Your task to perform on an android device: Clear the shopping cart on newegg.com. Add "logitech g910" to the cart on newegg.com, then select checkout. Image 0: 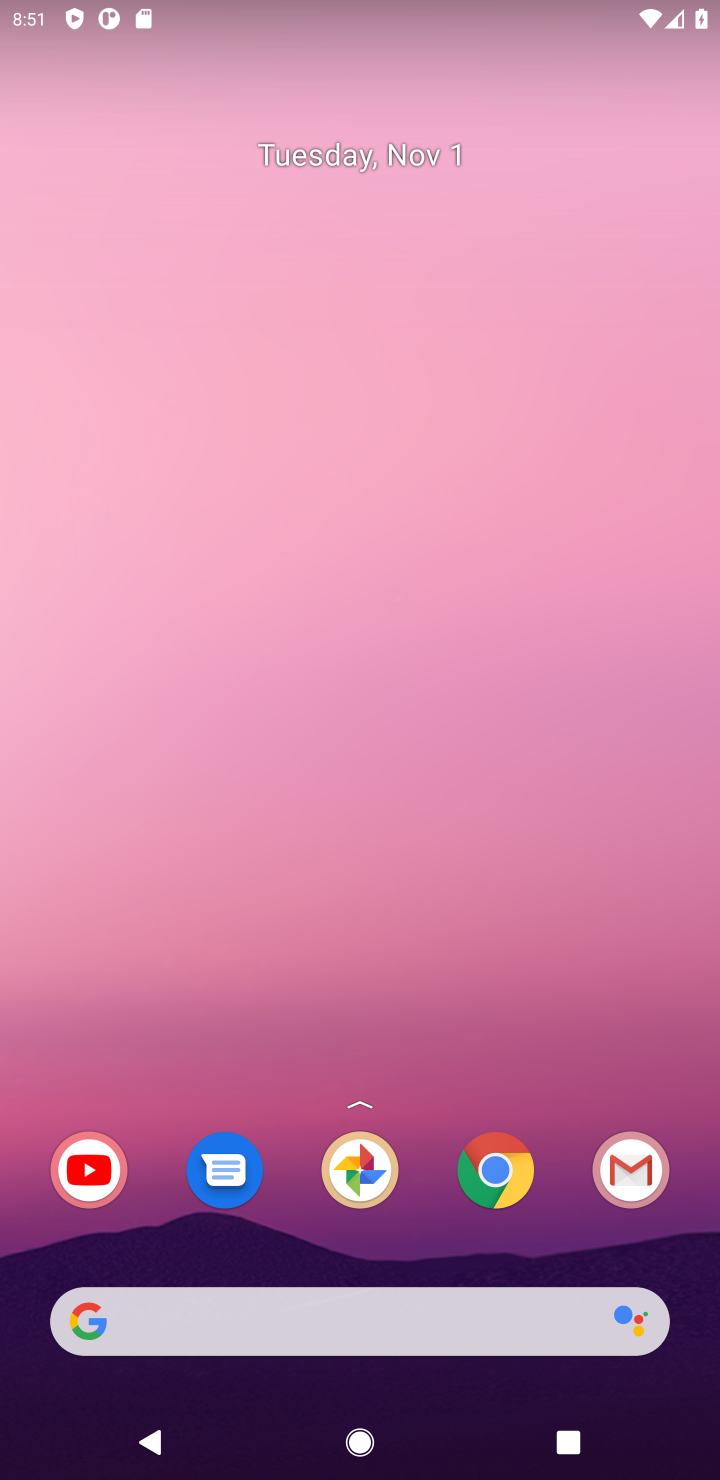
Step 0: click (489, 1169)
Your task to perform on an android device: Clear the shopping cart on newegg.com. Add "logitech g910" to the cart on newegg.com, then select checkout. Image 1: 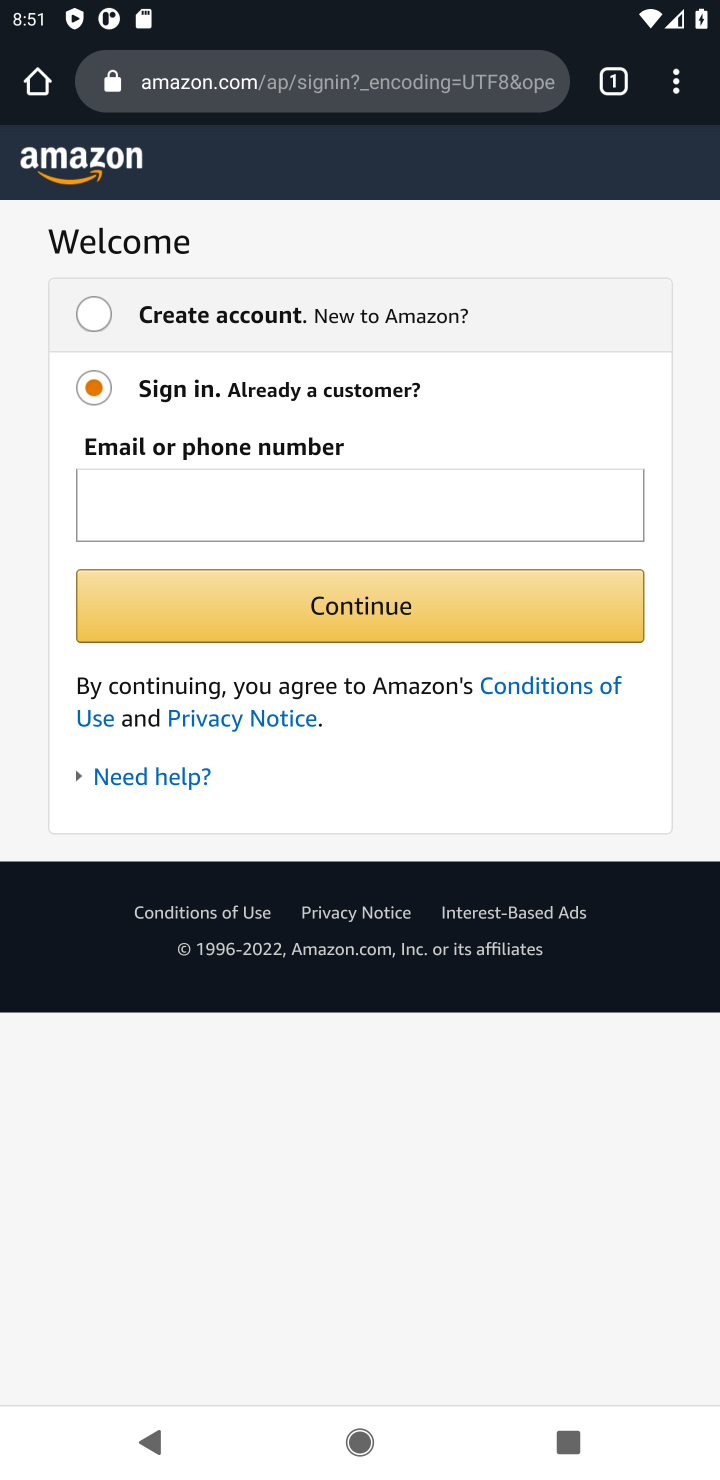
Step 1: click (400, 81)
Your task to perform on an android device: Clear the shopping cart on newegg.com. Add "logitech g910" to the cart on newegg.com, then select checkout. Image 2: 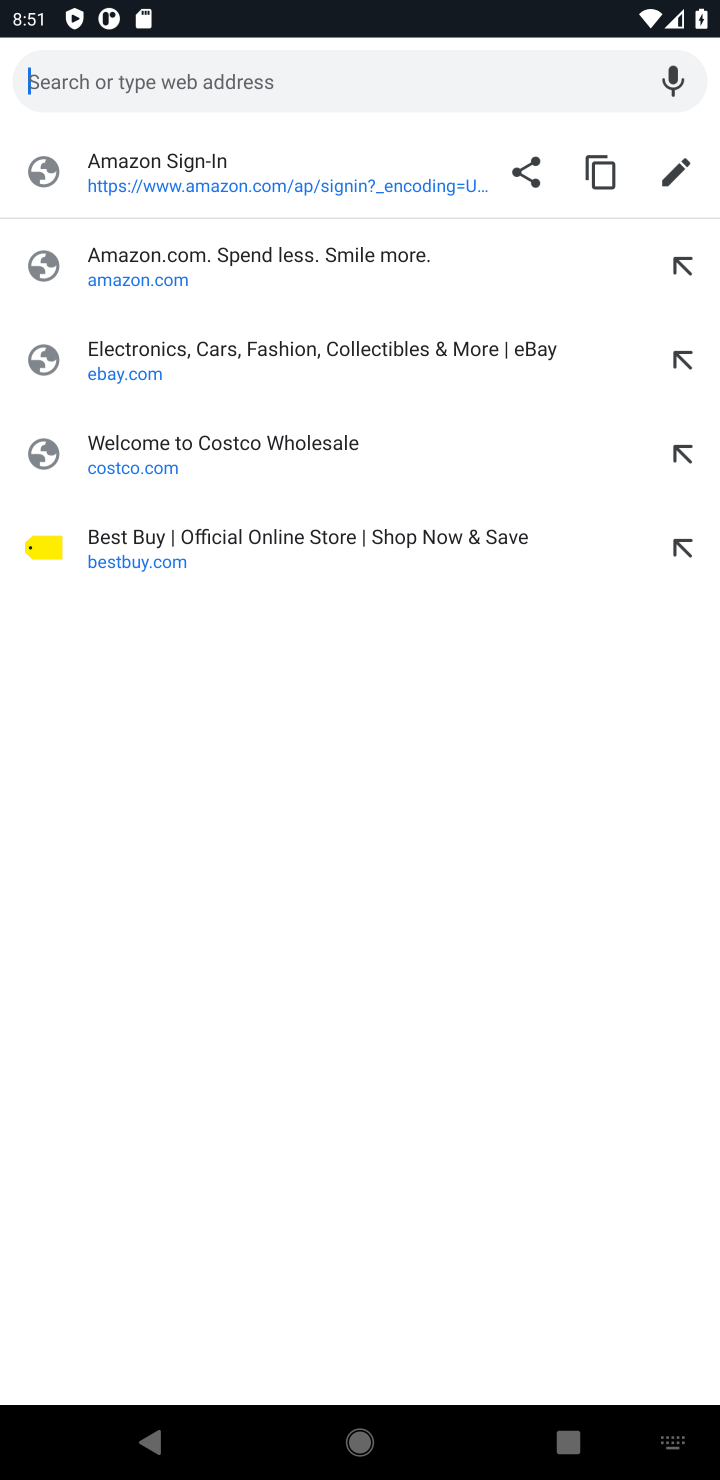
Step 2: type "newegg.com"
Your task to perform on an android device: Clear the shopping cart on newegg.com. Add "logitech g910" to the cart on newegg.com, then select checkout. Image 3: 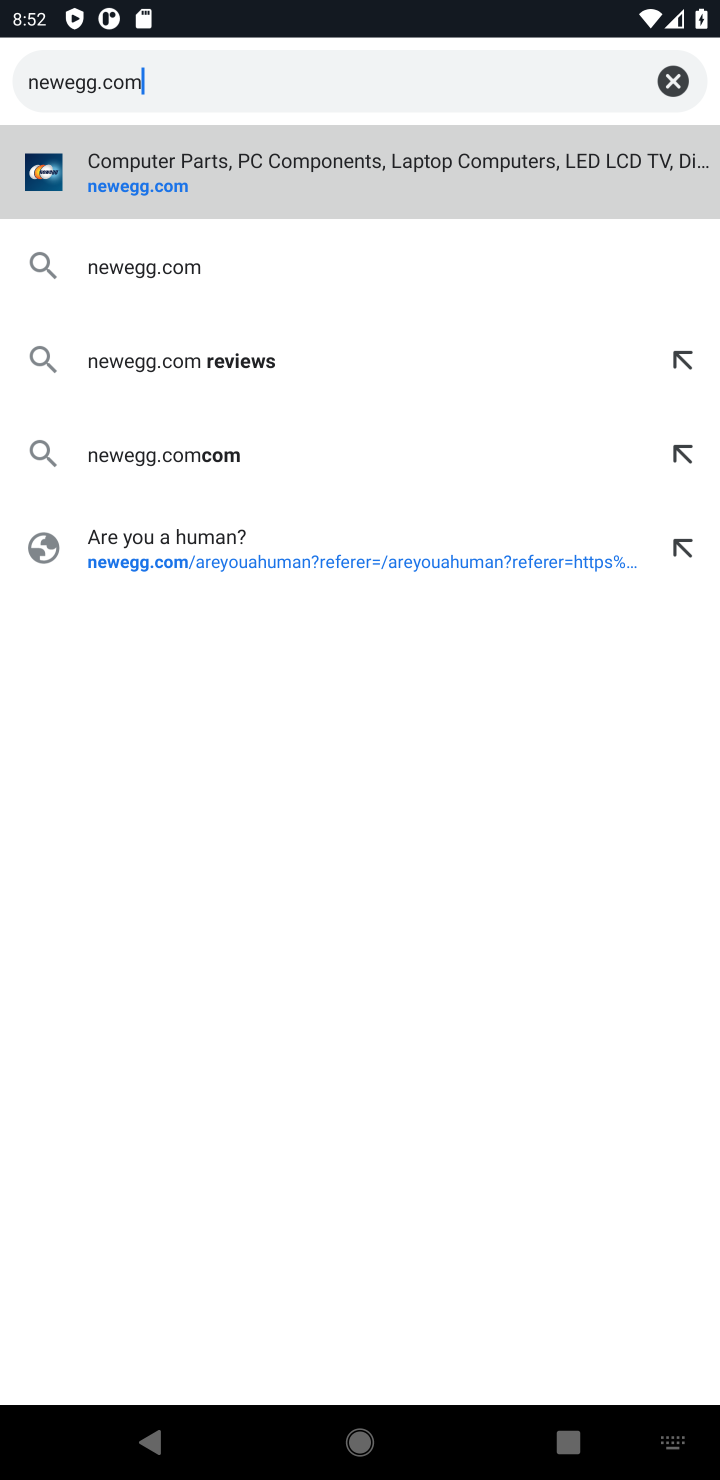
Step 3: press enter
Your task to perform on an android device: Clear the shopping cart on newegg.com. Add "logitech g910" to the cart on newegg.com, then select checkout. Image 4: 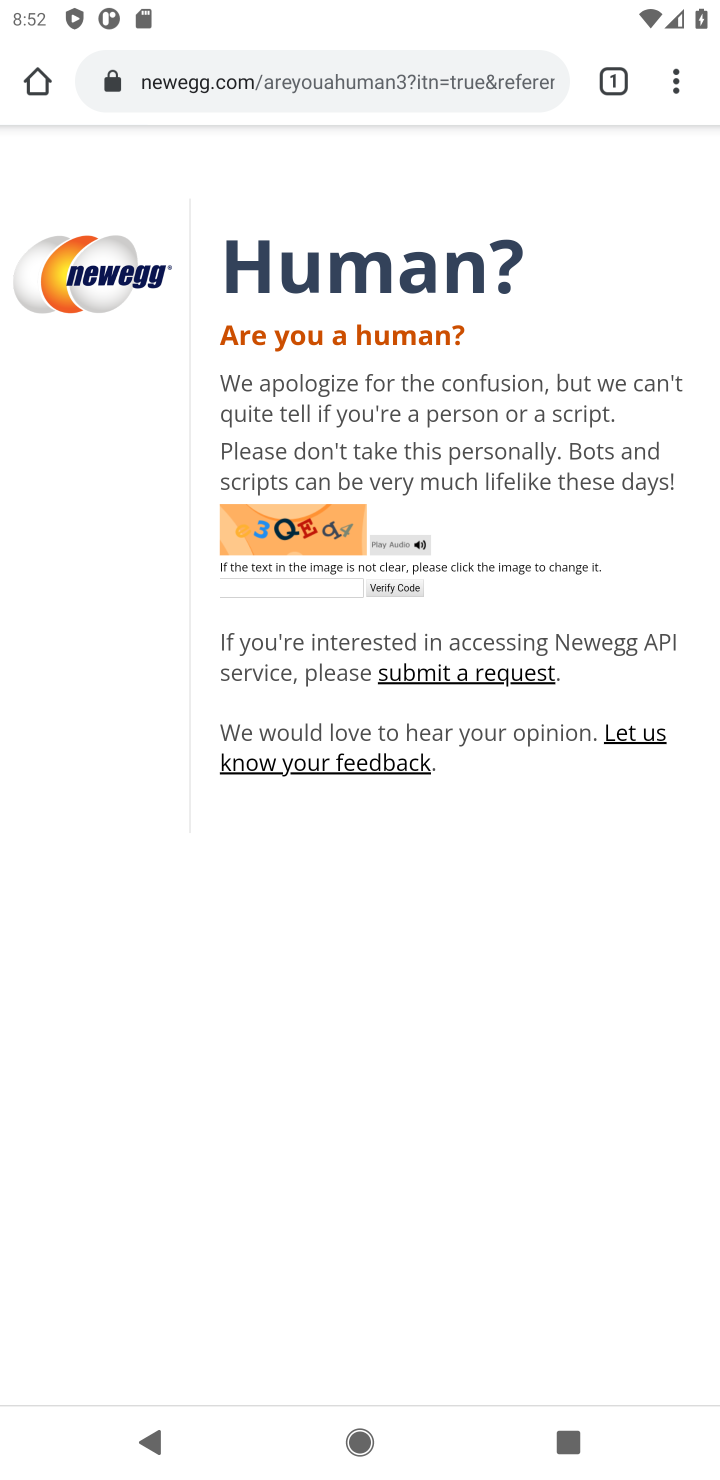
Step 4: click (274, 580)
Your task to perform on an android device: Clear the shopping cart on newegg.com. Add "logitech g910" to the cart on newegg.com, then select checkout. Image 5: 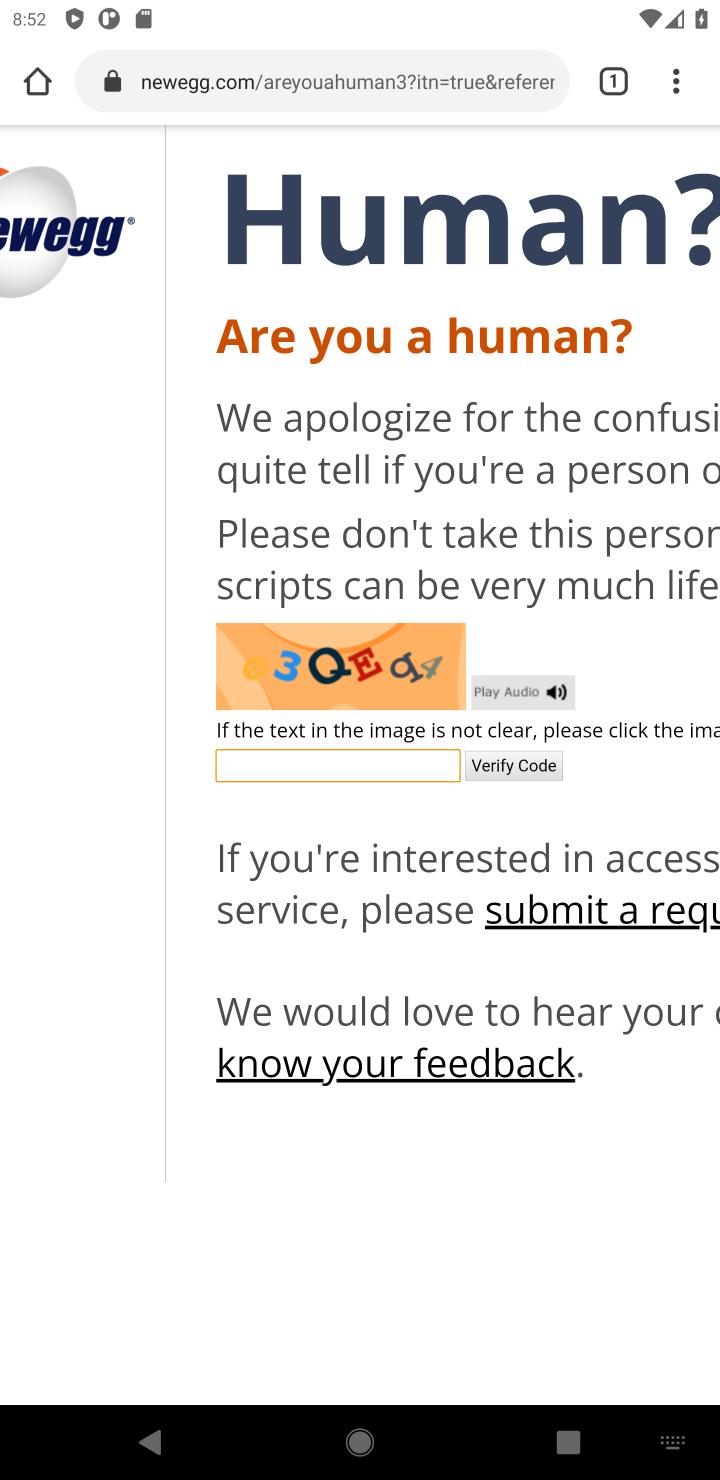
Step 5: type "t3QEq"
Your task to perform on an android device: Clear the shopping cart on newegg.com. Add "logitech g910" to the cart on newegg.com, then select checkout. Image 6: 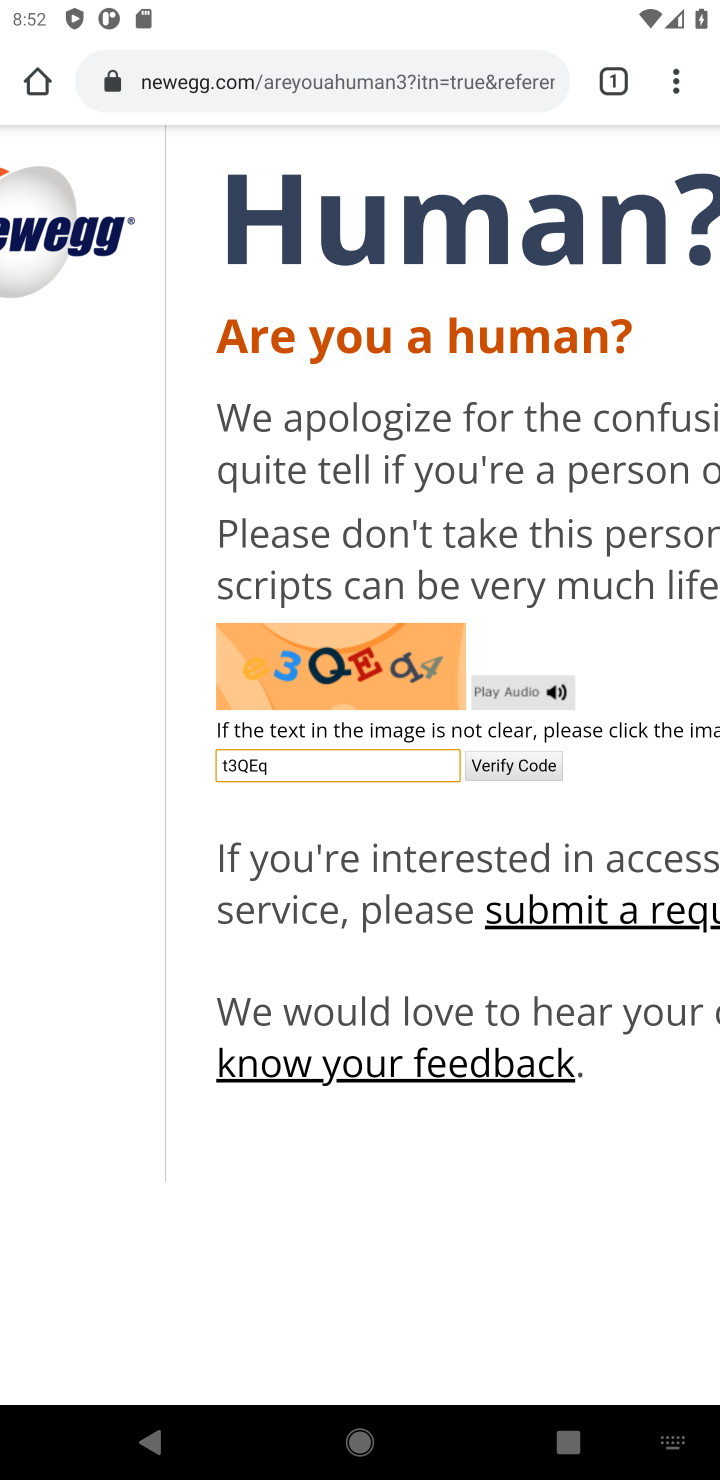
Step 6: click (556, 772)
Your task to perform on an android device: Clear the shopping cart on newegg.com. Add "logitech g910" to the cart on newegg.com, then select checkout. Image 7: 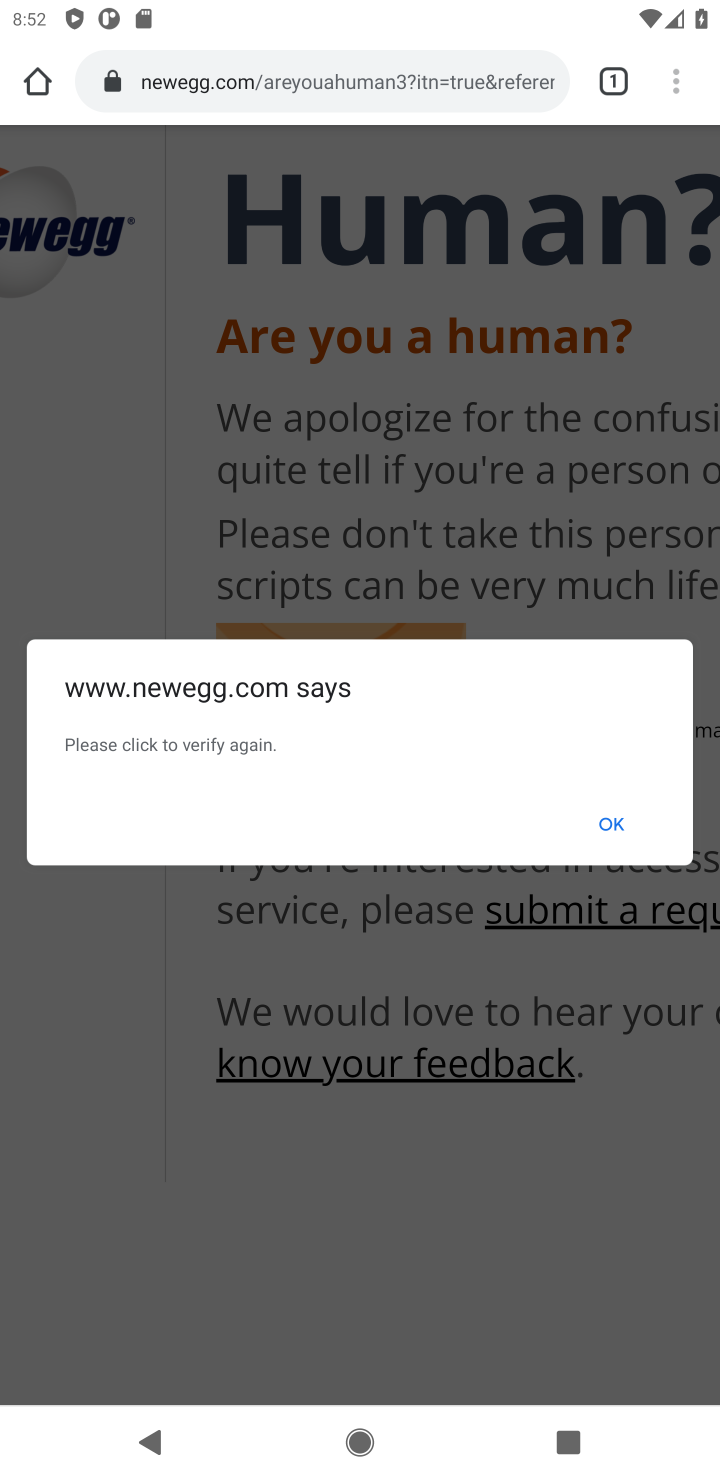
Step 7: click (608, 826)
Your task to perform on an android device: Clear the shopping cart on newegg.com. Add "logitech g910" to the cart on newegg.com, then select checkout. Image 8: 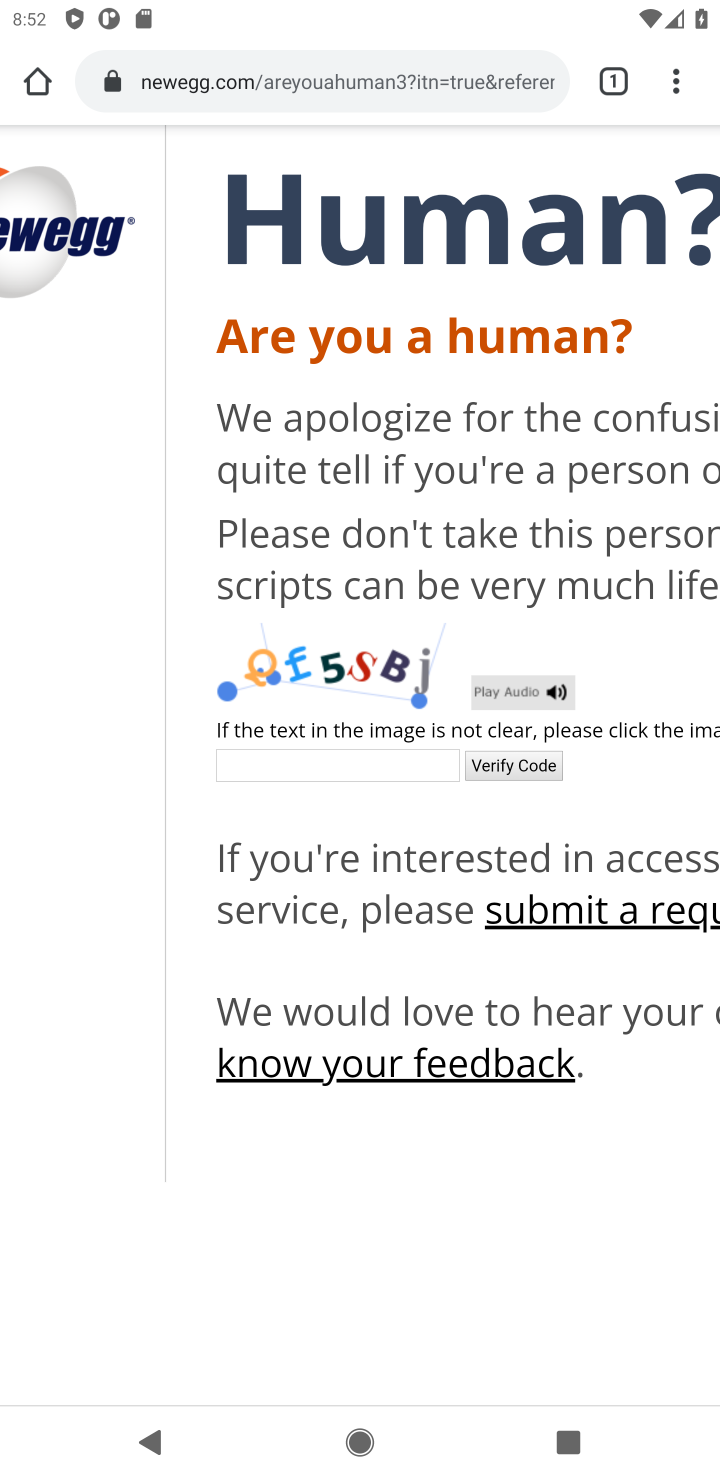
Step 8: click (302, 759)
Your task to perform on an android device: Clear the shopping cart on newegg.com. Add "logitech g910" to the cart on newegg.com, then select checkout. Image 9: 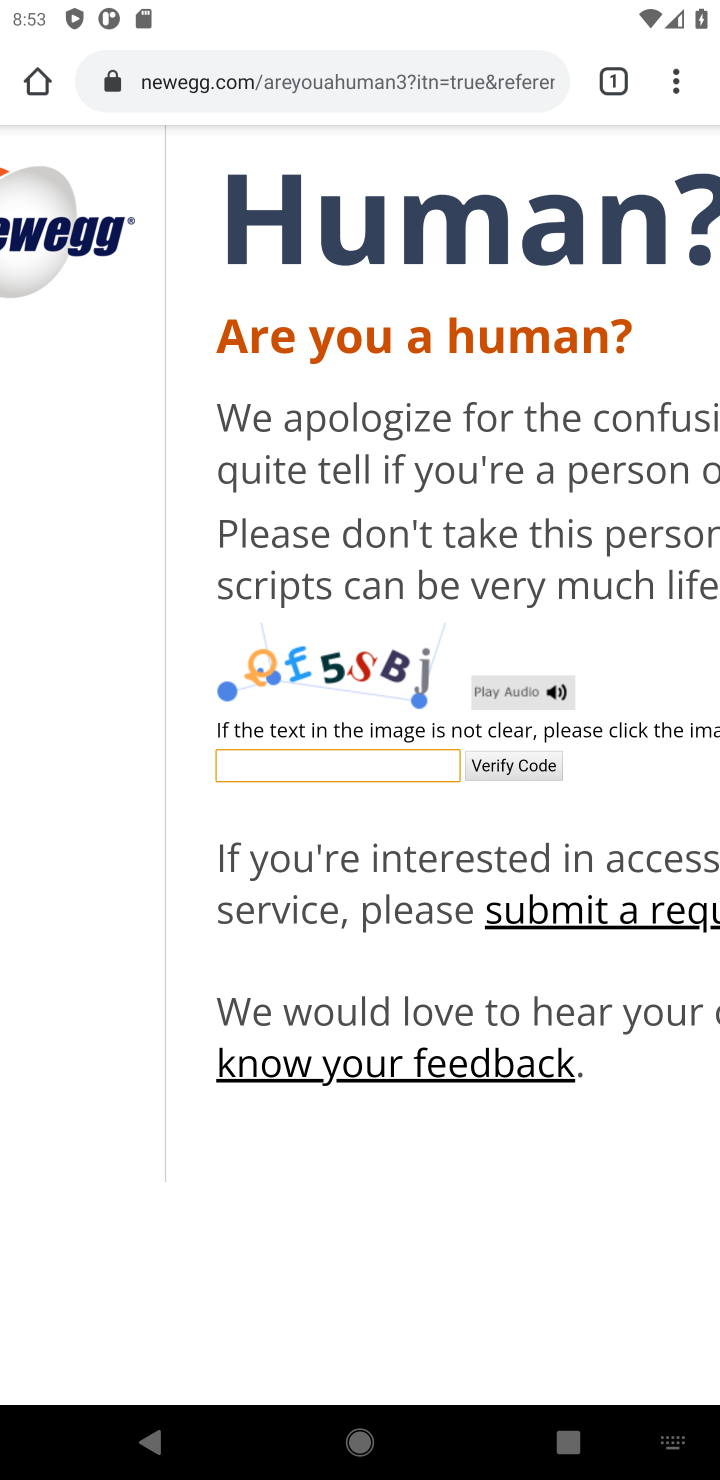
Step 9: type "tOf5SBj"
Your task to perform on an android device: Clear the shopping cart on newegg.com. Add "logitech g910" to the cart on newegg.com, then select checkout. Image 10: 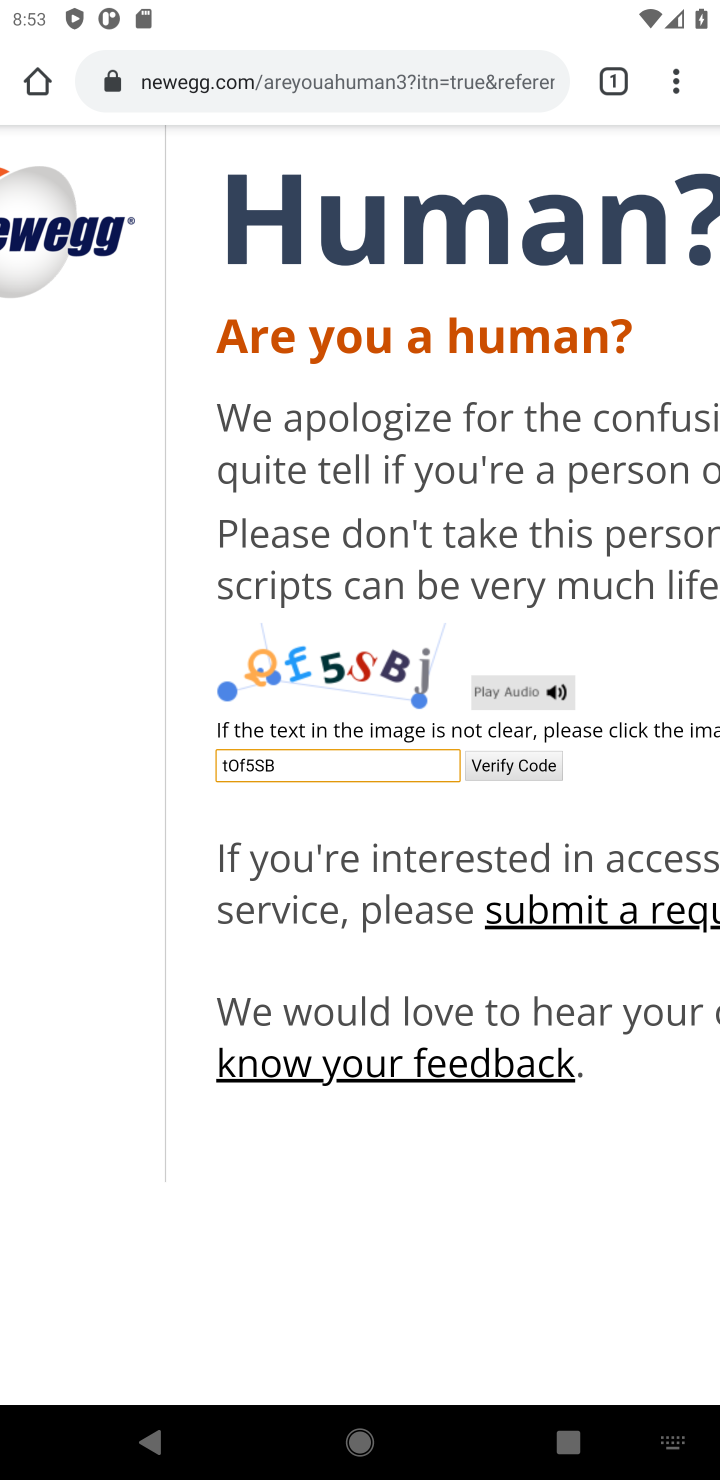
Step 10: type "j"
Your task to perform on an android device: Clear the shopping cart on newegg.com. Add "logitech g910" to the cart on newegg.com, then select checkout. Image 11: 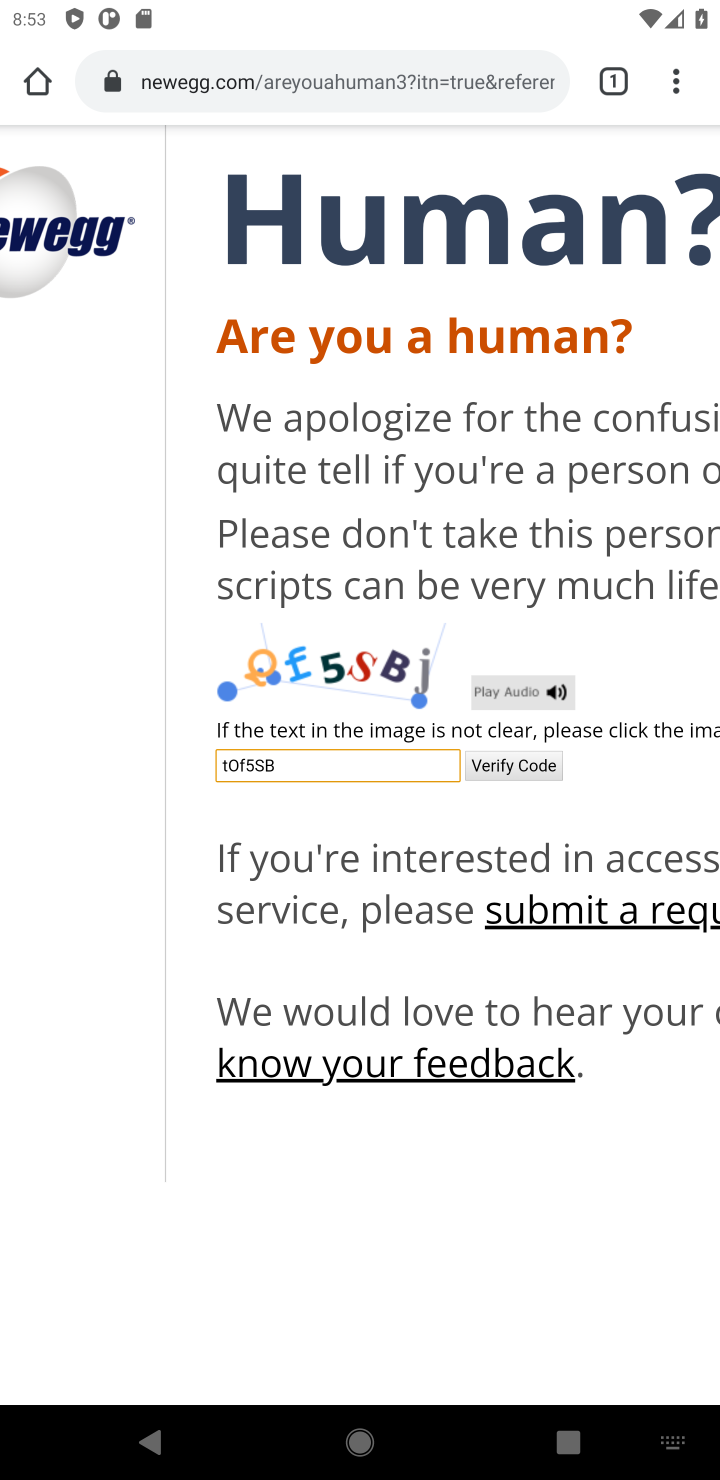
Step 11: click (527, 762)
Your task to perform on an android device: Clear the shopping cart on newegg.com. Add "logitech g910" to the cart on newegg.com, then select checkout. Image 12: 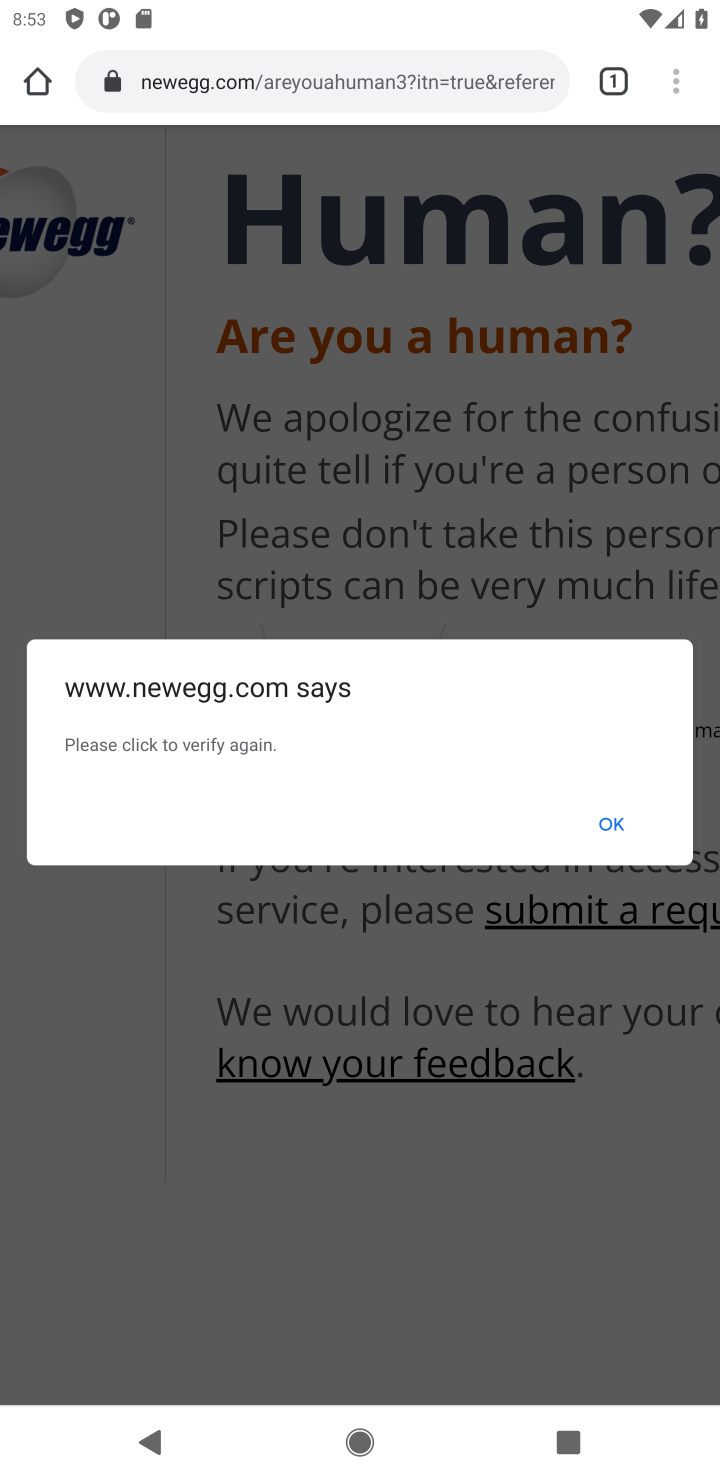
Step 12: click (618, 825)
Your task to perform on an android device: Clear the shopping cart on newegg.com. Add "logitech g910" to the cart on newegg.com, then select checkout. Image 13: 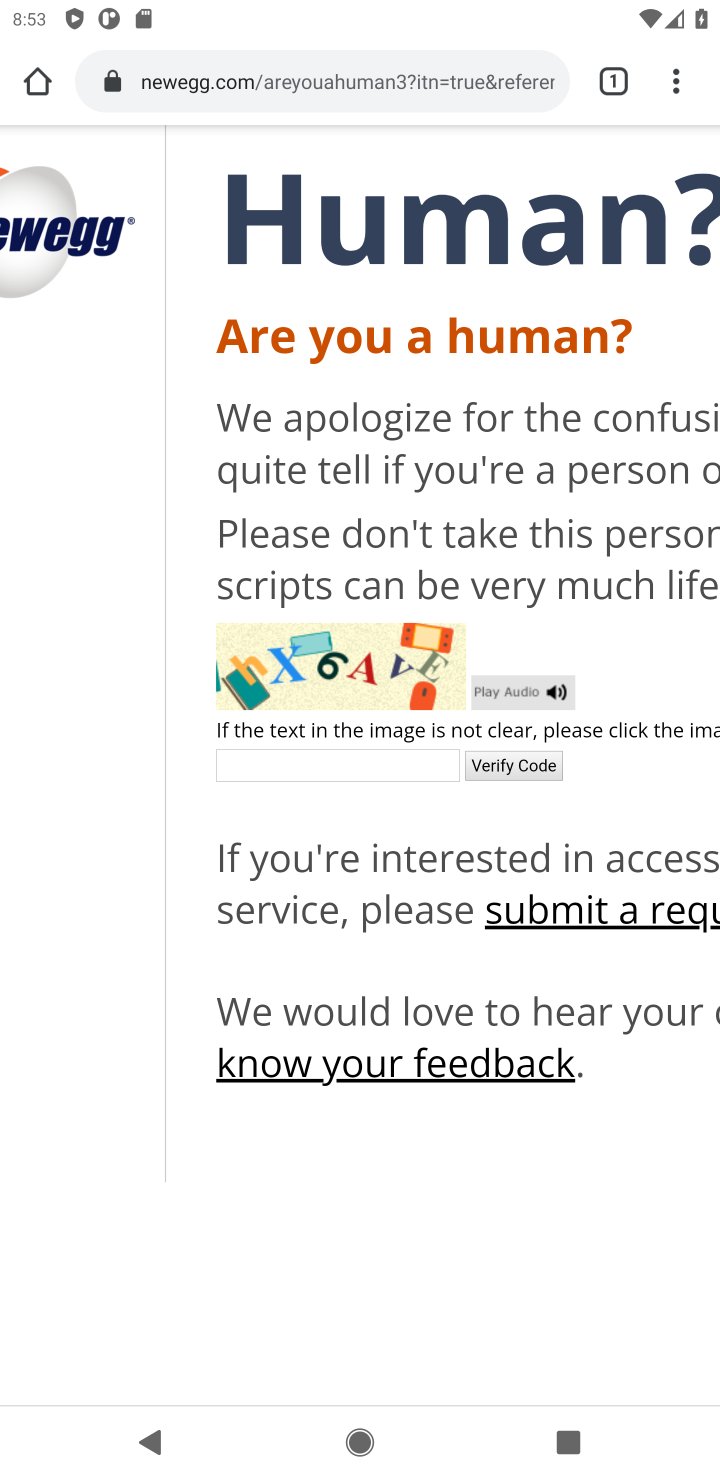
Step 13: type "h"
Your task to perform on an android device: Clear the shopping cart on newegg.com. Add "logitech g910" to the cart on newegg.com, then select checkout. Image 14: 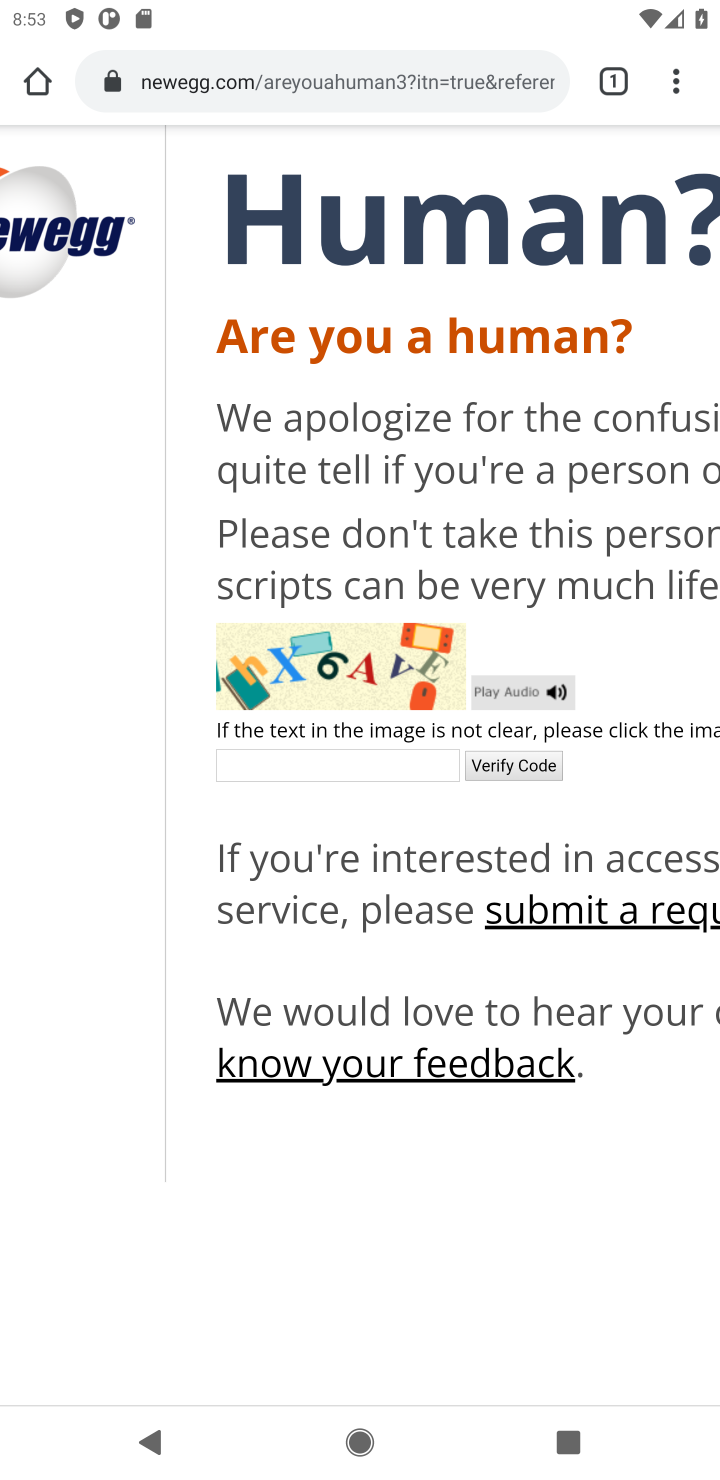
Step 14: click (424, 757)
Your task to perform on an android device: Clear the shopping cart on newegg.com. Add "logitech g910" to the cart on newegg.com, then select checkout. Image 15: 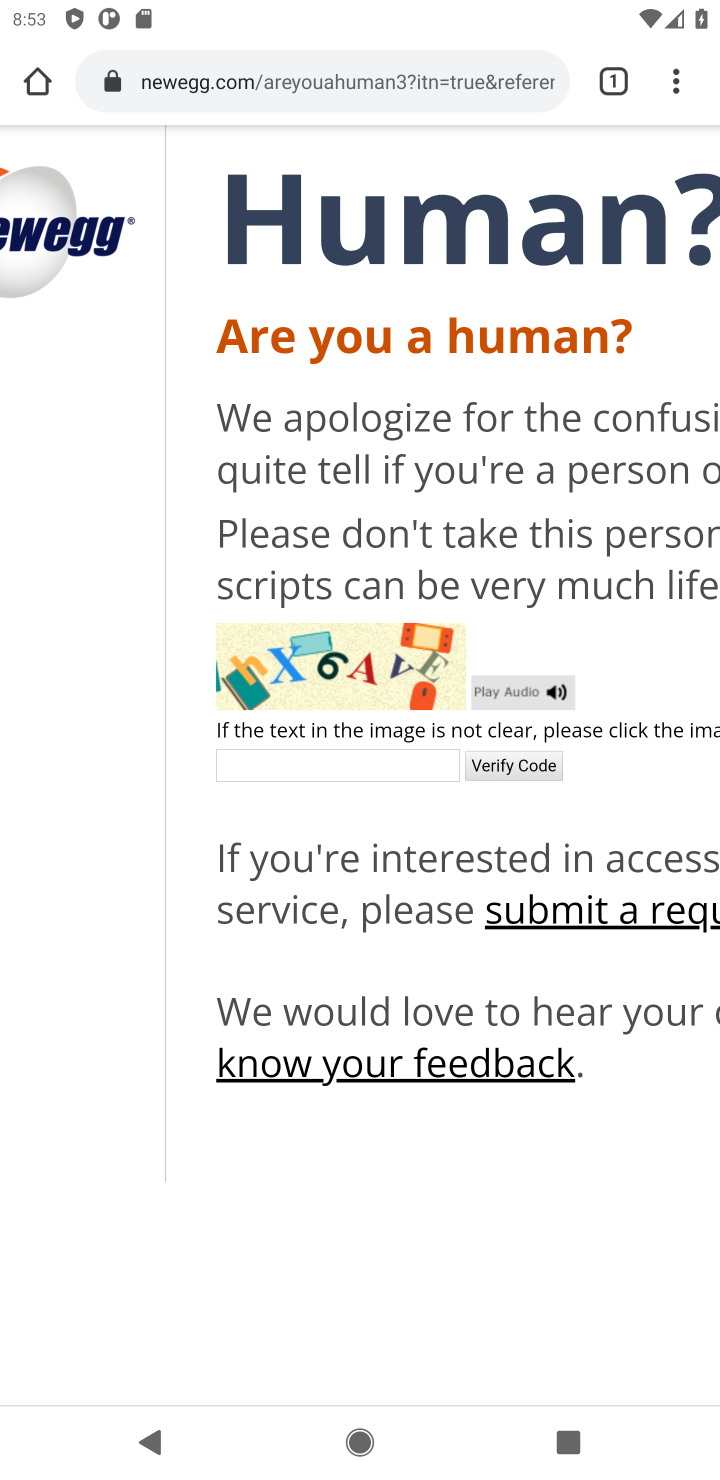
Step 15: click (392, 759)
Your task to perform on an android device: Clear the shopping cart on newegg.com. Add "logitech g910" to the cart on newegg.com, then select checkout. Image 16: 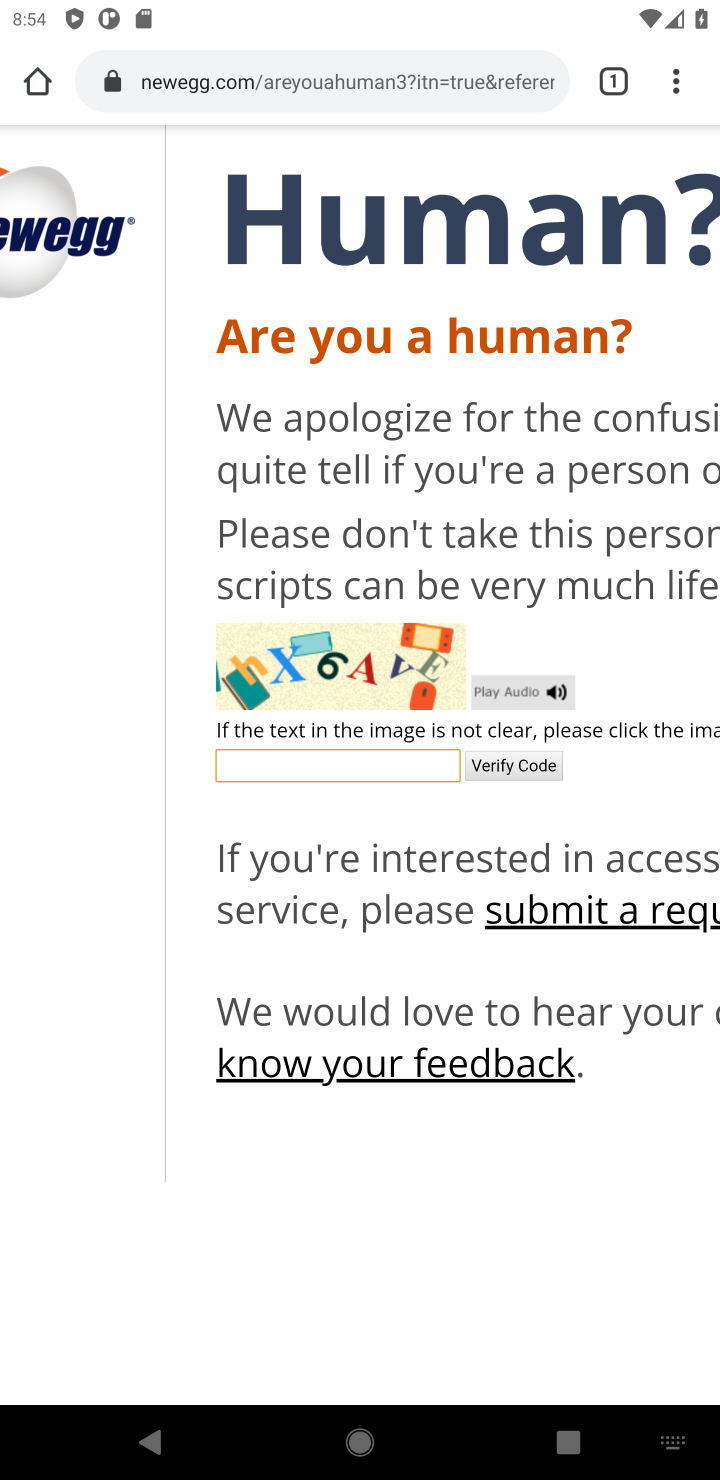
Step 16: type "hX6AvE"
Your task to perform on an android device: Clear the shopping cart on newegg.com. Add "logitech g910" to the cart on newegg.com, then select checkout. Image 17: 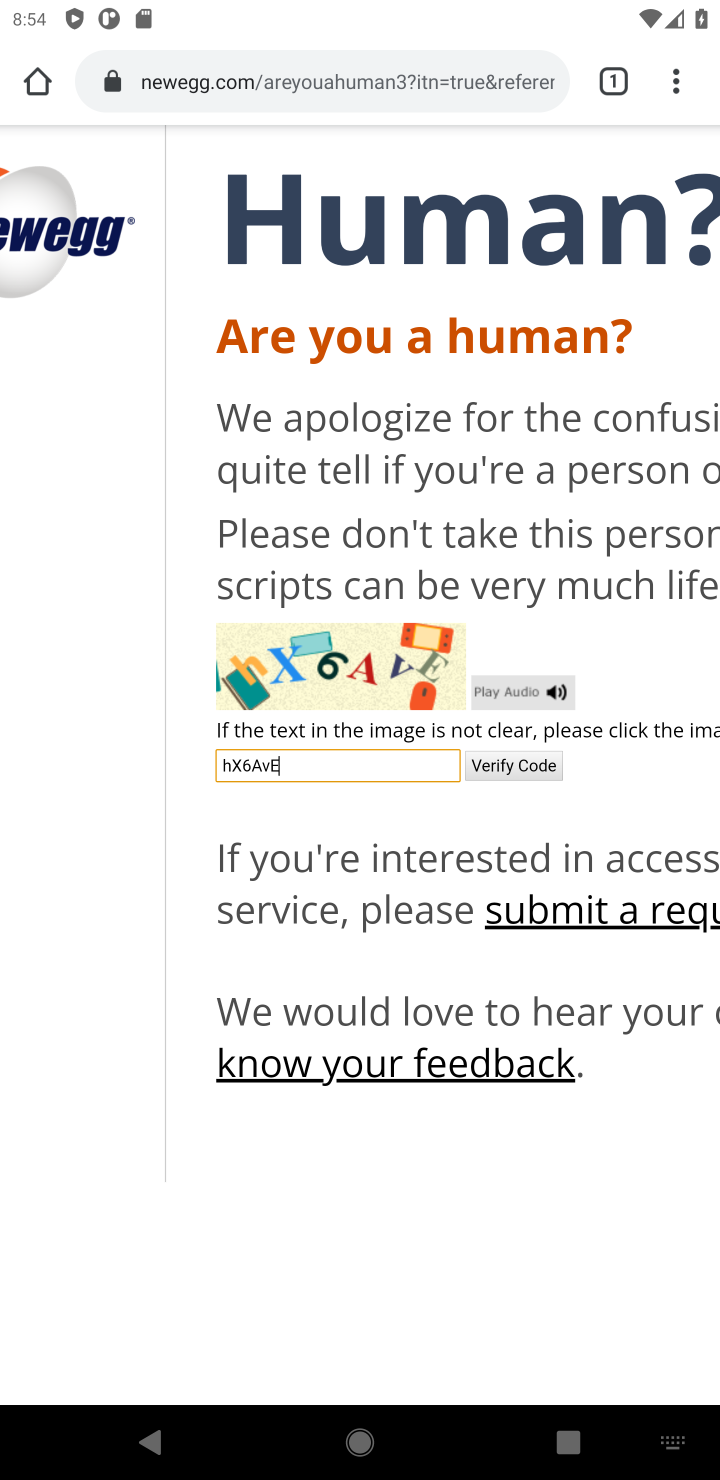
Step 17: type ""
Your task to perform on an android device: Clear the shopping cart on newegg.com. Add "logitech g910" to the cart on newegg.com, then select checkout. Image 18: 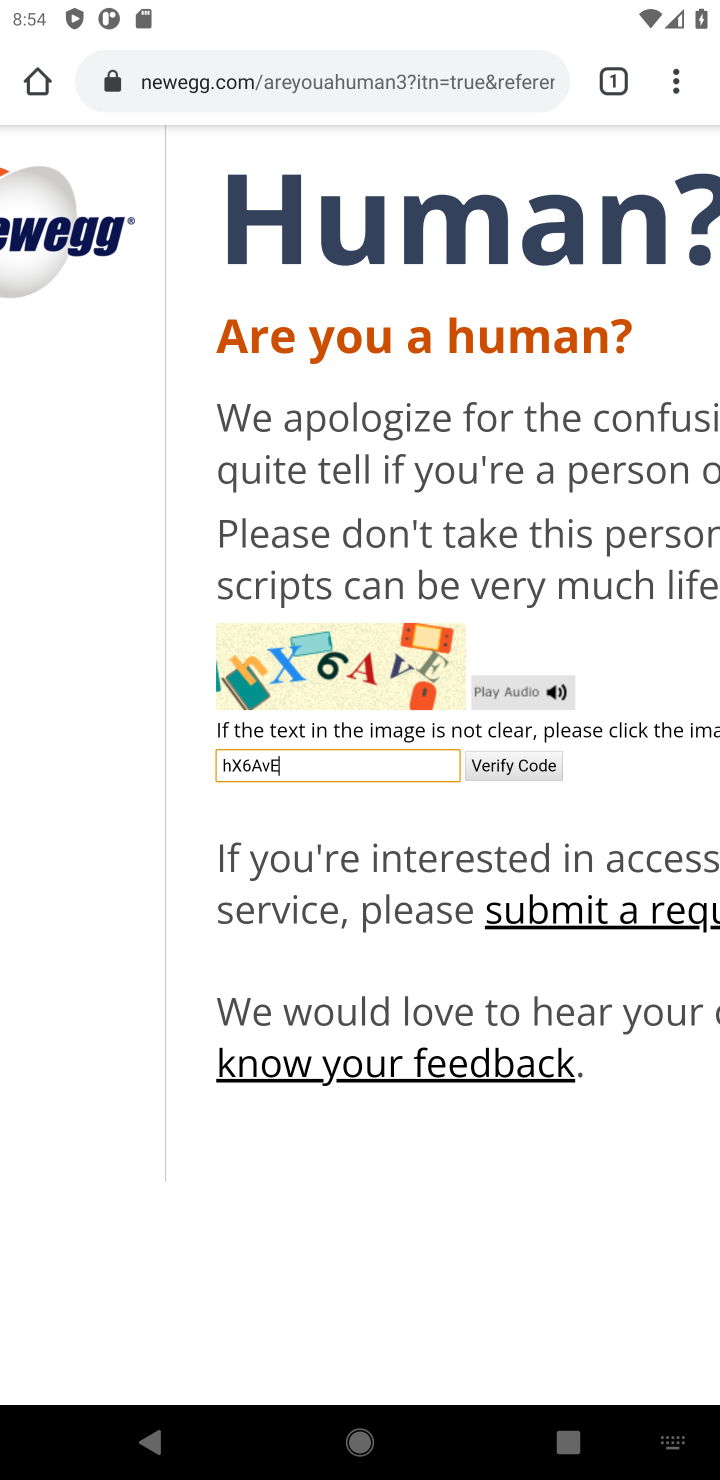
Step 18: click (535, 768)
Your task to perform on an android device: Clear the shopping cart on newegg.com. Add "logitech g910" to the cart on newegg.com, then select checkout. Image 19: 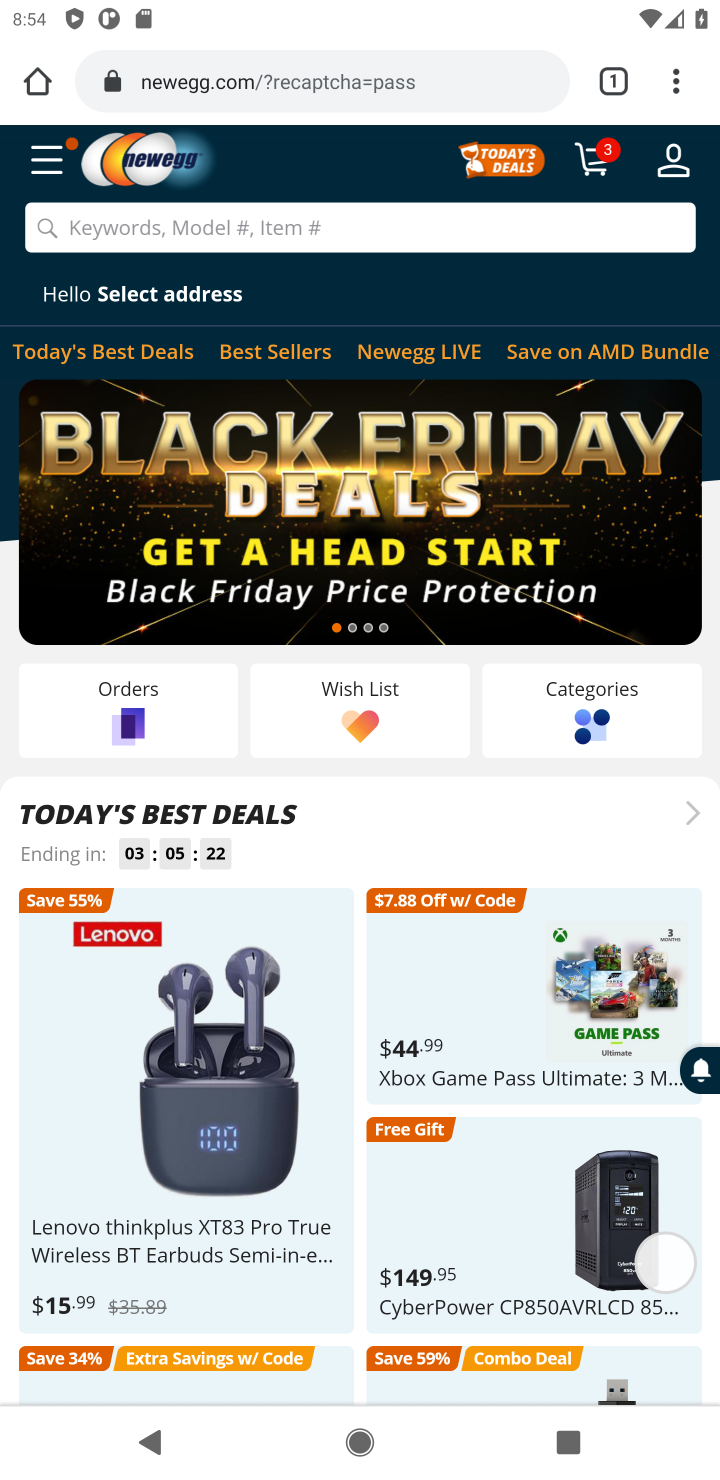
Step 19: click (563, 163)
Your task to perform on an android device: Clear the shopping cart on newegg.com. Add "logitech g910" to the cart on newegg.com, then select checkout. Image 20: 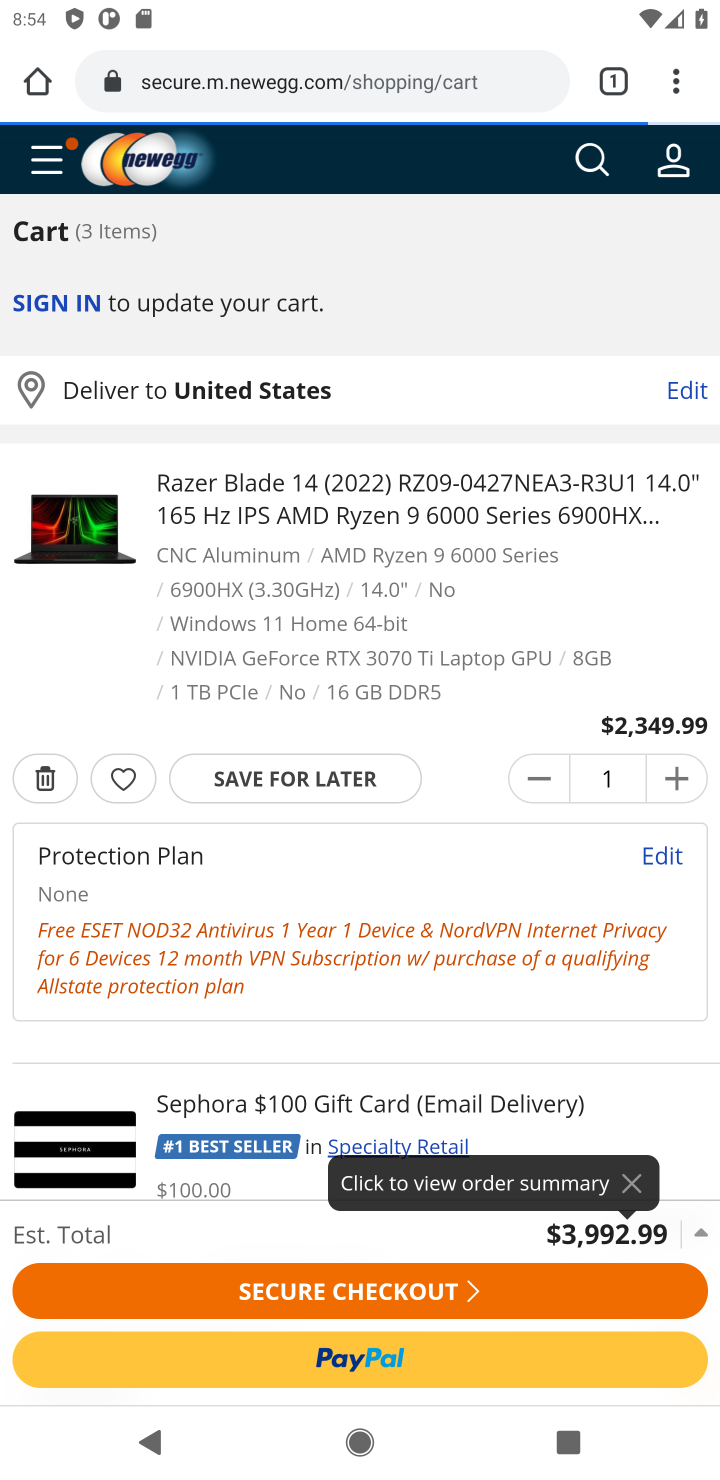
Step 20: click (50, 783)
Your task to perform on an android device: Clear the shopping cart on newegg.com. Add "logitech g910" to the cart on newegg.com, then select checkout. Image 21: 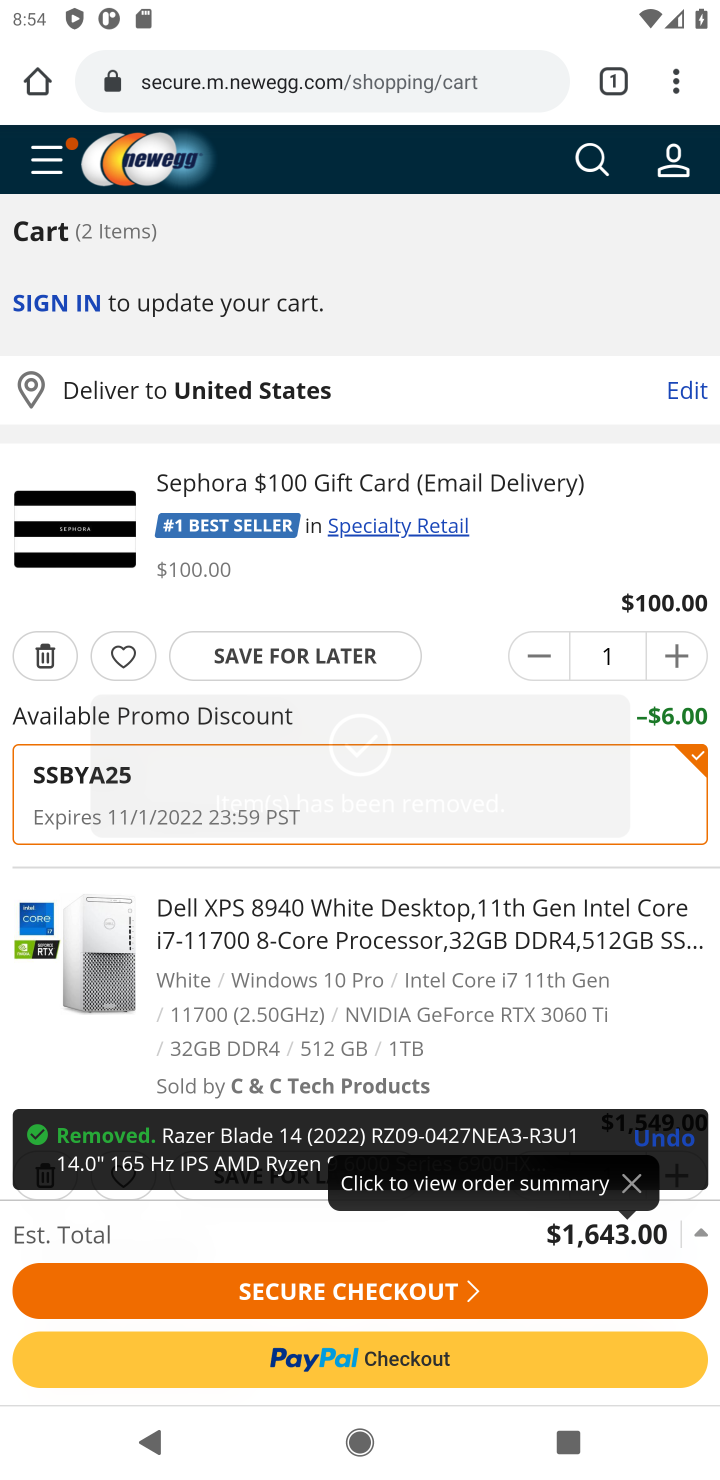
Step 21: click (24, 670)
Your task to perform on an android device: Clear the shopping cart on newegg.com. Add "logitech g910" to the cart on newegg.com, then select checkout. Image 22: 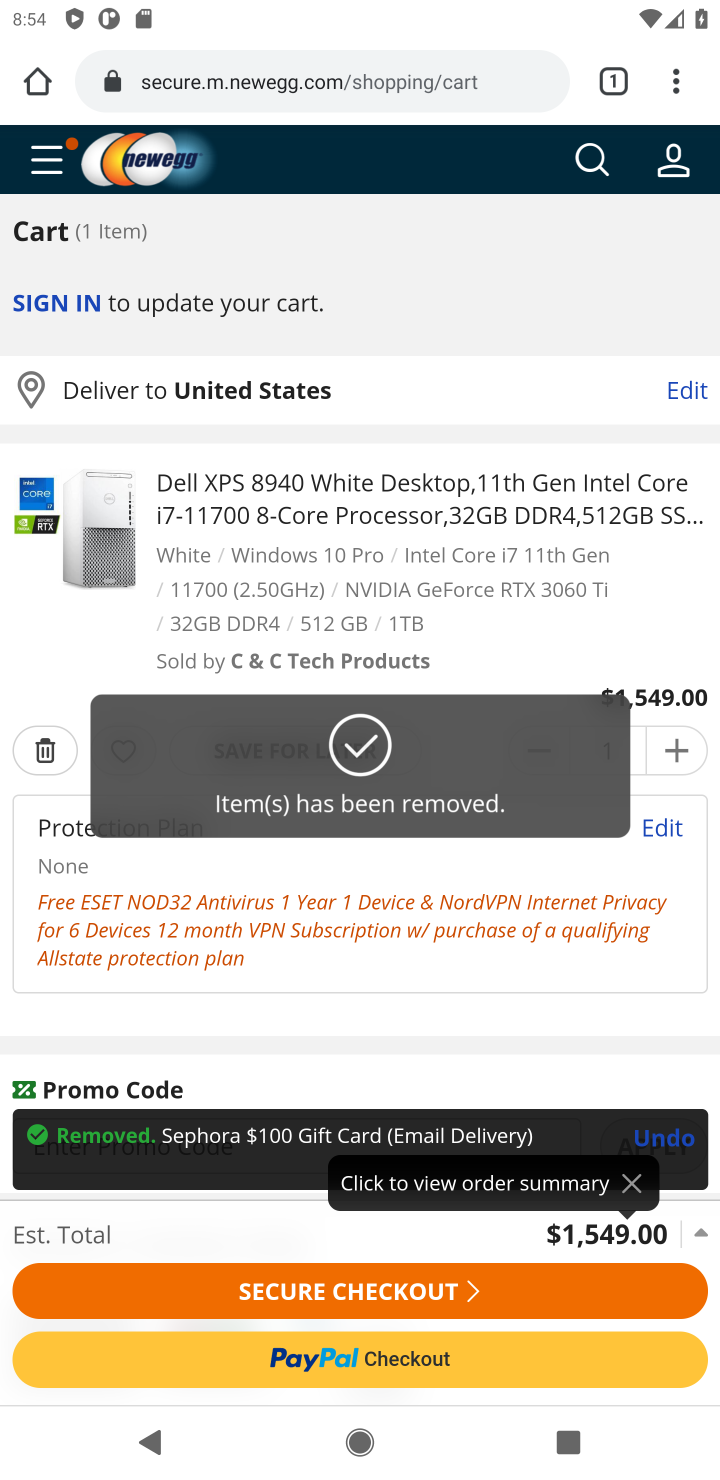
Step 22: click (53, 757)
Your task to perform on an android device: Clear the shopping cart on newegg.com. Add "logitech g910" to the cart on newegg.com, then select checkout. Image 23: 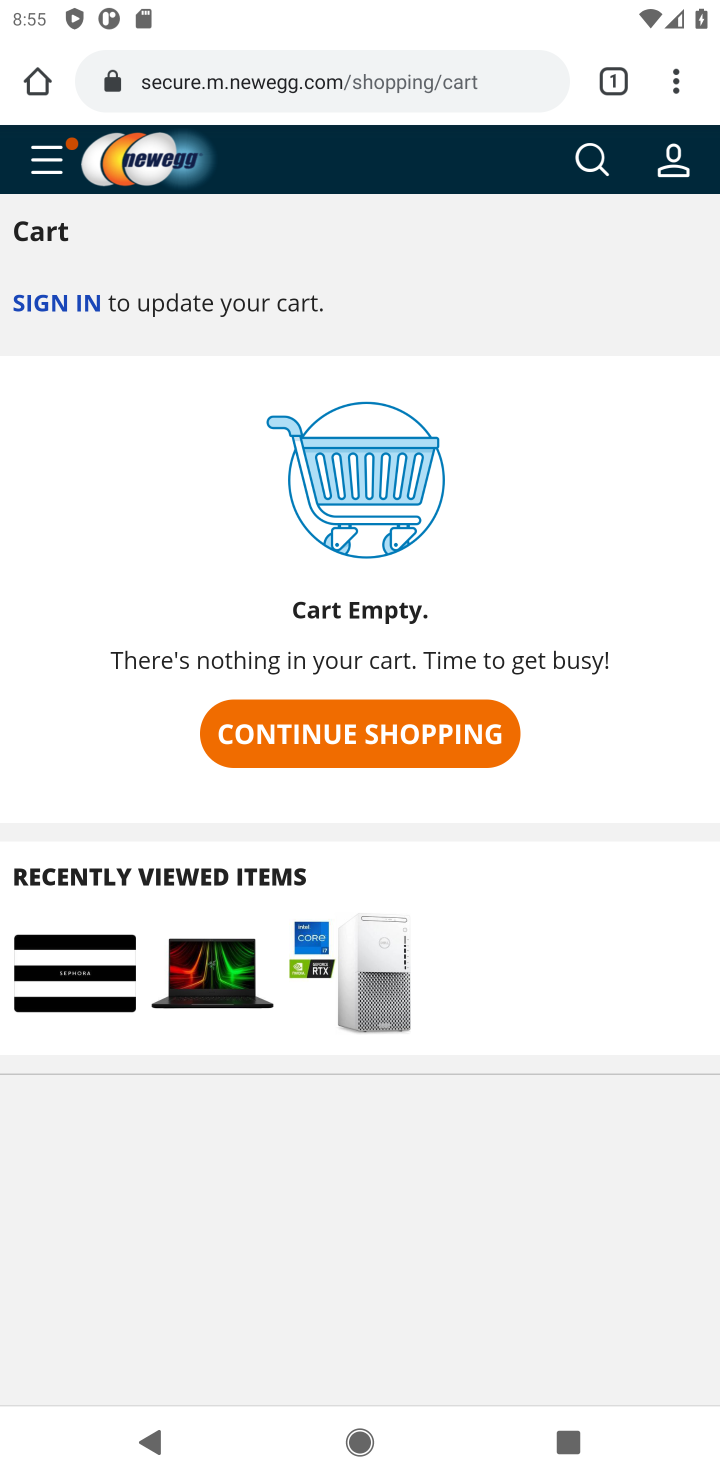
Step 23: click (404, 746)
Your task to perform on an android device: Clear the shopping cart on newegg.com. Add "logitech g910" to the cart on newegg.com, then select checkout. Image 24: 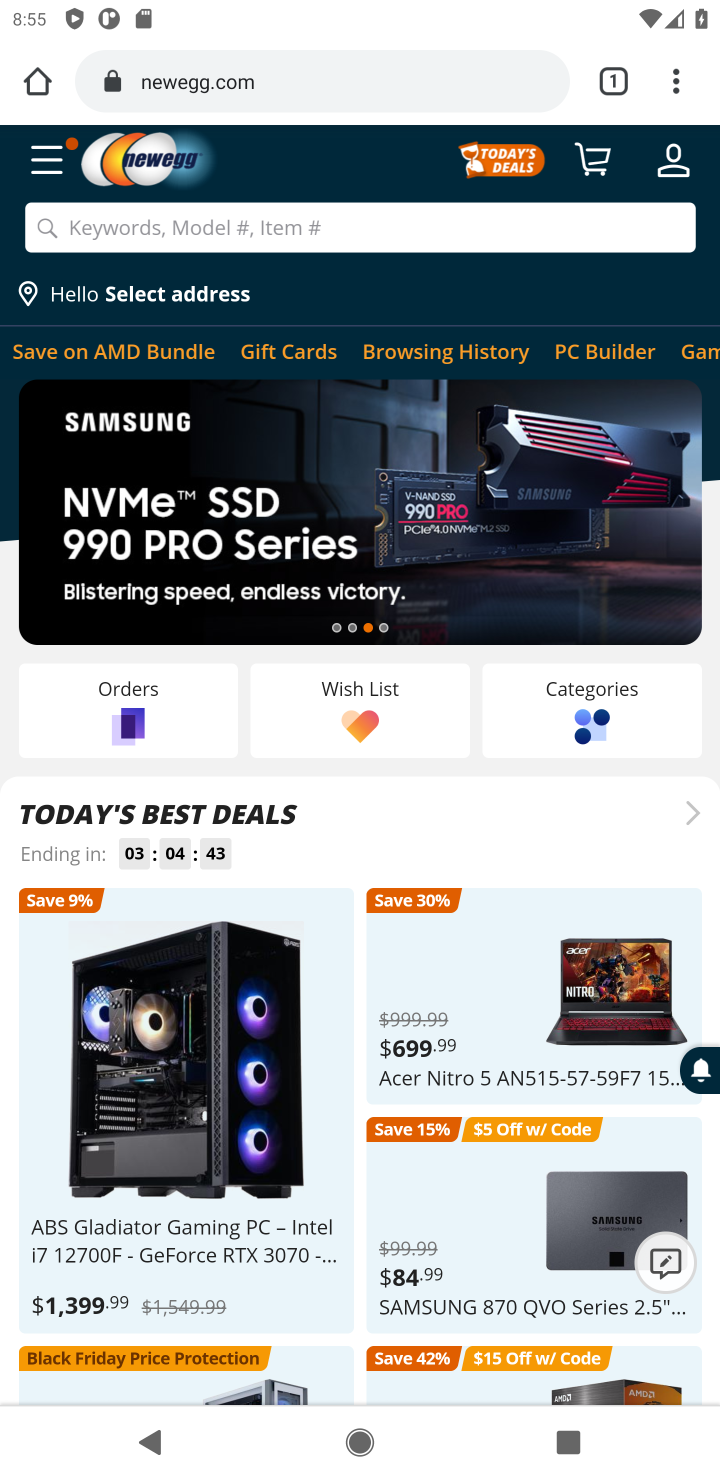
Step 24: click (323, 239)
Your task to perform on an android device: Clear the shopping cart on newegg.com. Add "logitech g910" to the cart on newegg.com, then select checkout. Image 25: 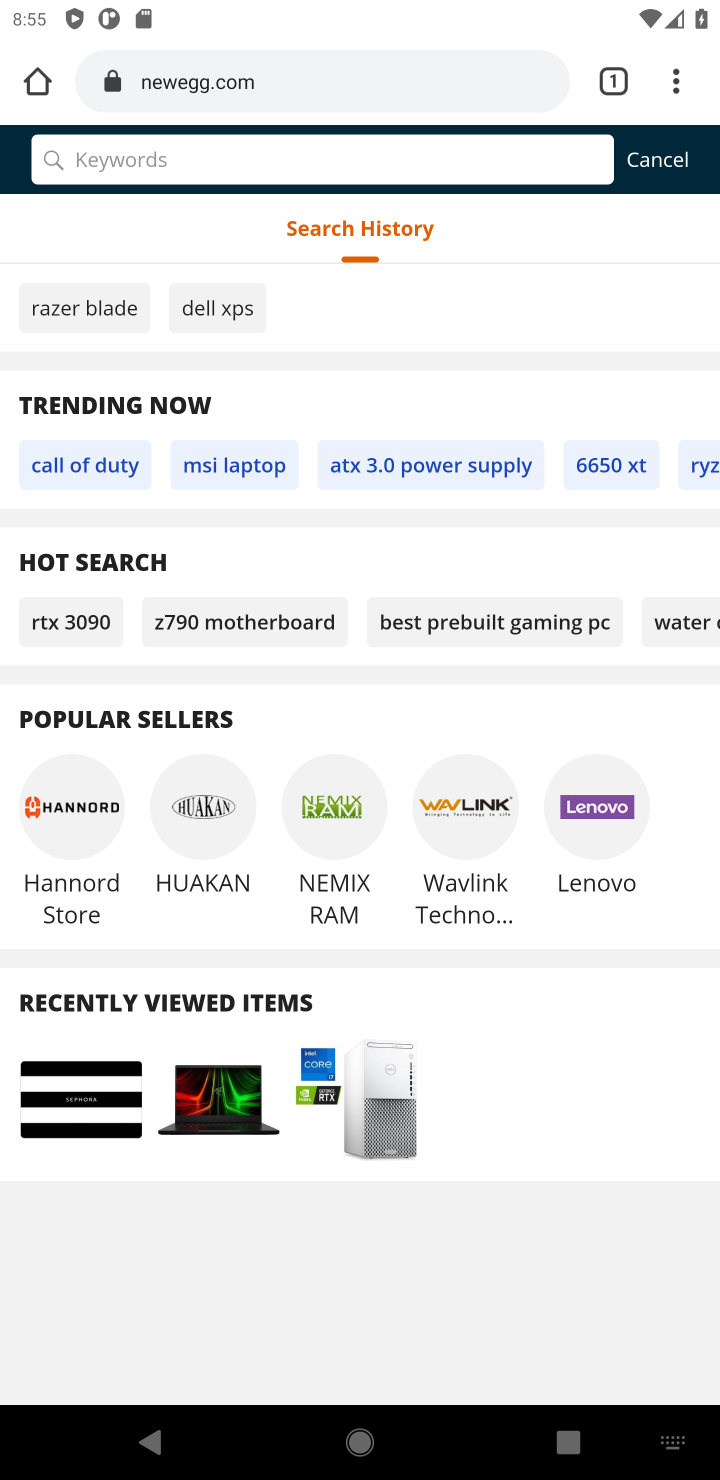
Step 25: type "logitech g910"
Your task to perform on an android device: Clear the shopping cart on newegg.com. Add "logitech g910" to the cart on newegg.com, then select checkout. Image 26: 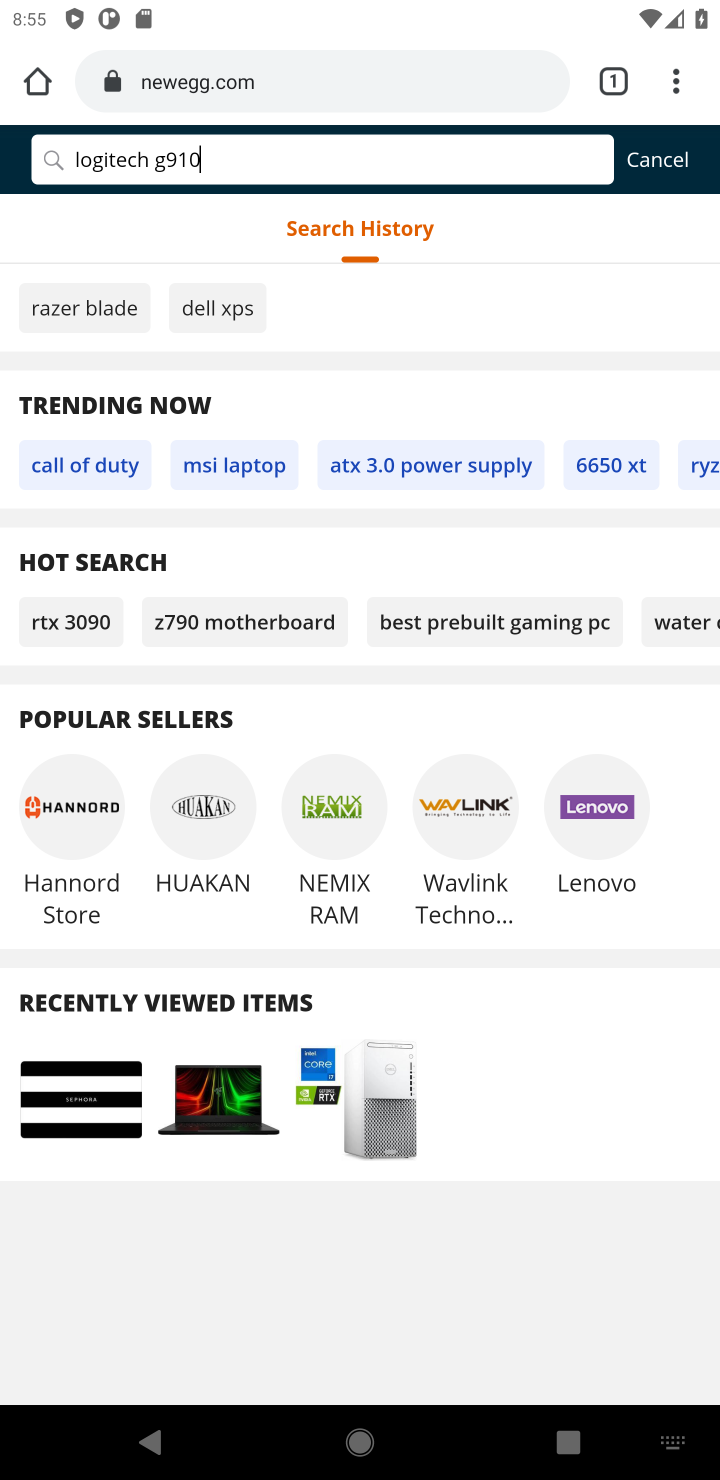
Step 26: type ""
Your task to perform on an android device: Clear the shopping cart on newegg.com. Add "logitech g910" to the cart on newegg.com, then select checkout. Image 27: 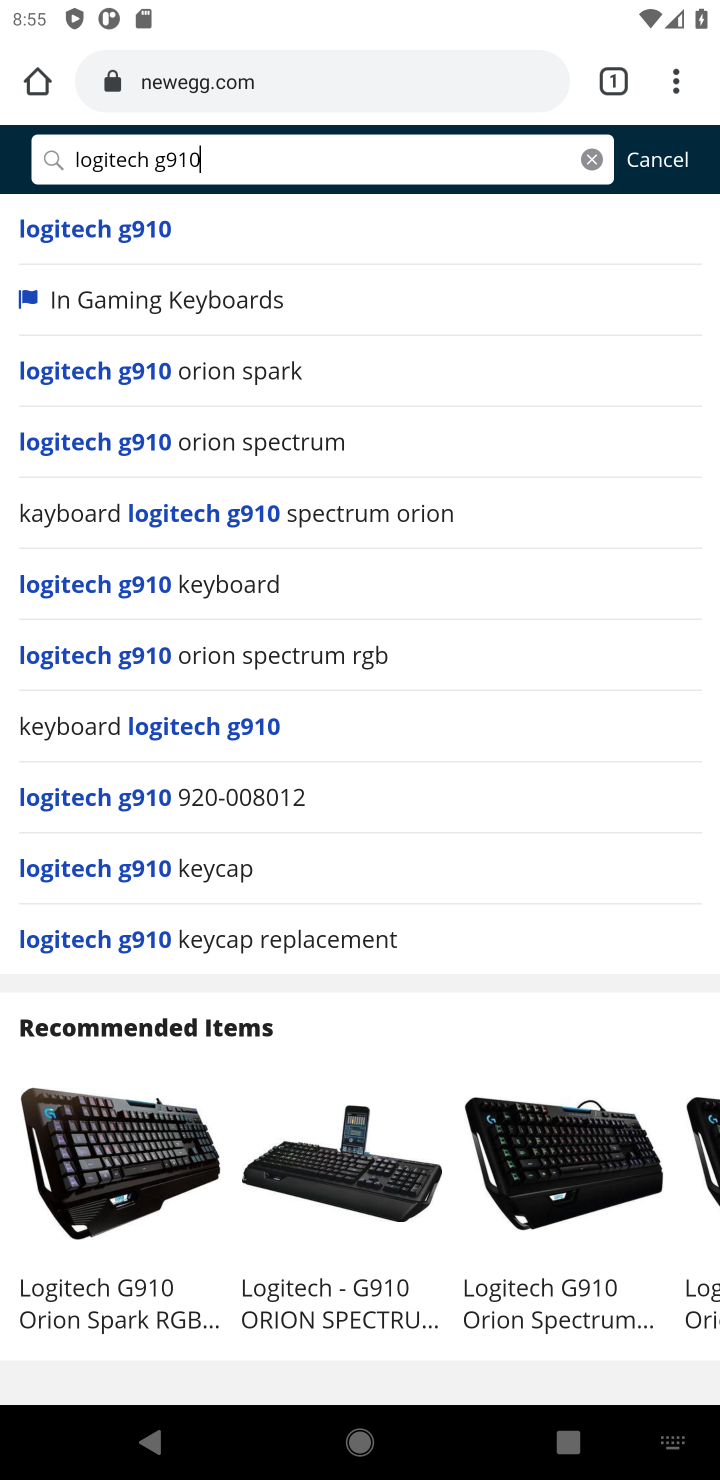
Step 27: press enter
Your task to perform on an android device: Clear the shopping cart on newegg.com. Add "logitech g910" to the cart on newegg.com, then select checkout. Image 28: 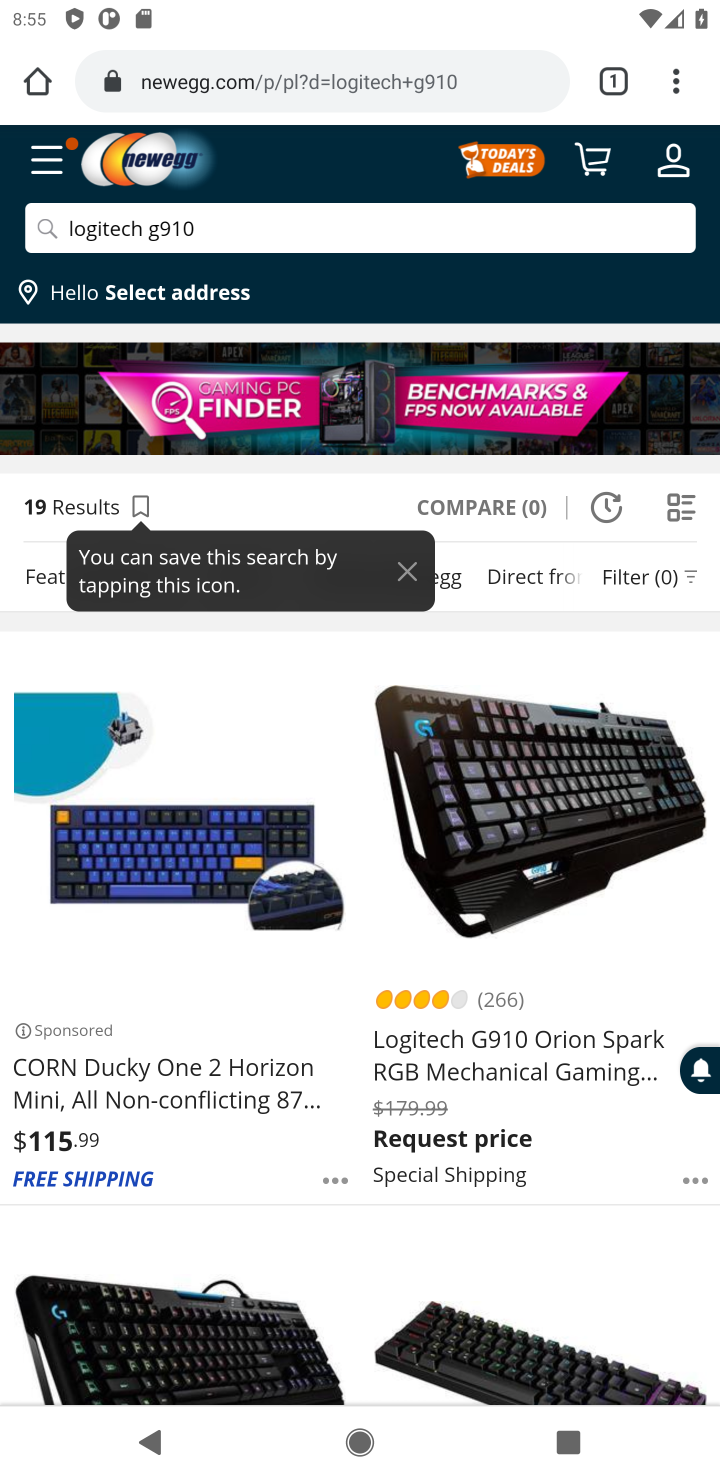
Step 28: click (563, 900)
Your task to perform on an android device: Clear the shopping cart on newegg.com. Add "logitech g910" to the cart on newegg.com, then select checkout. Image 29: 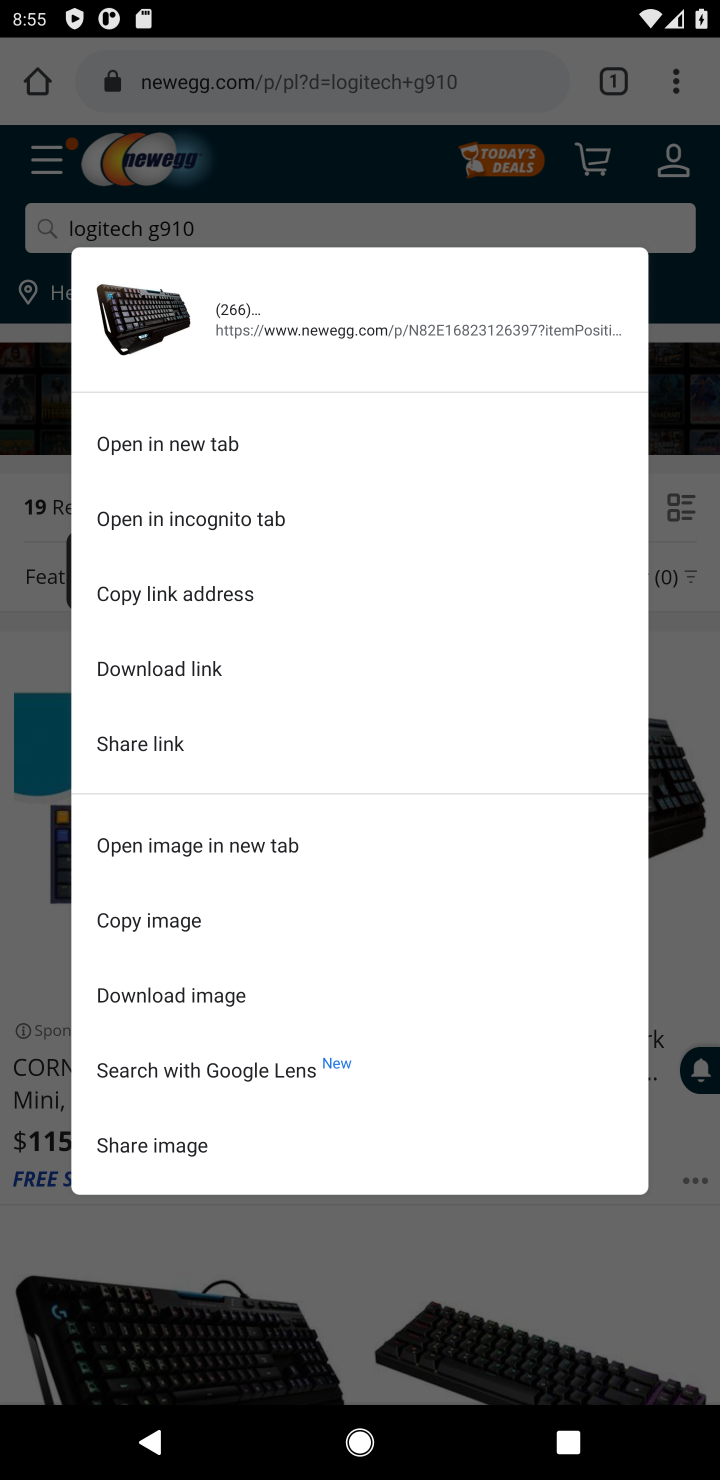
Step 29: click (696, 906)
Your task to perform on an android device: Clear the shopping cart on newegg.com. Add "logitech g910" to the cart on newegg.com, then select checkout. Image 30: 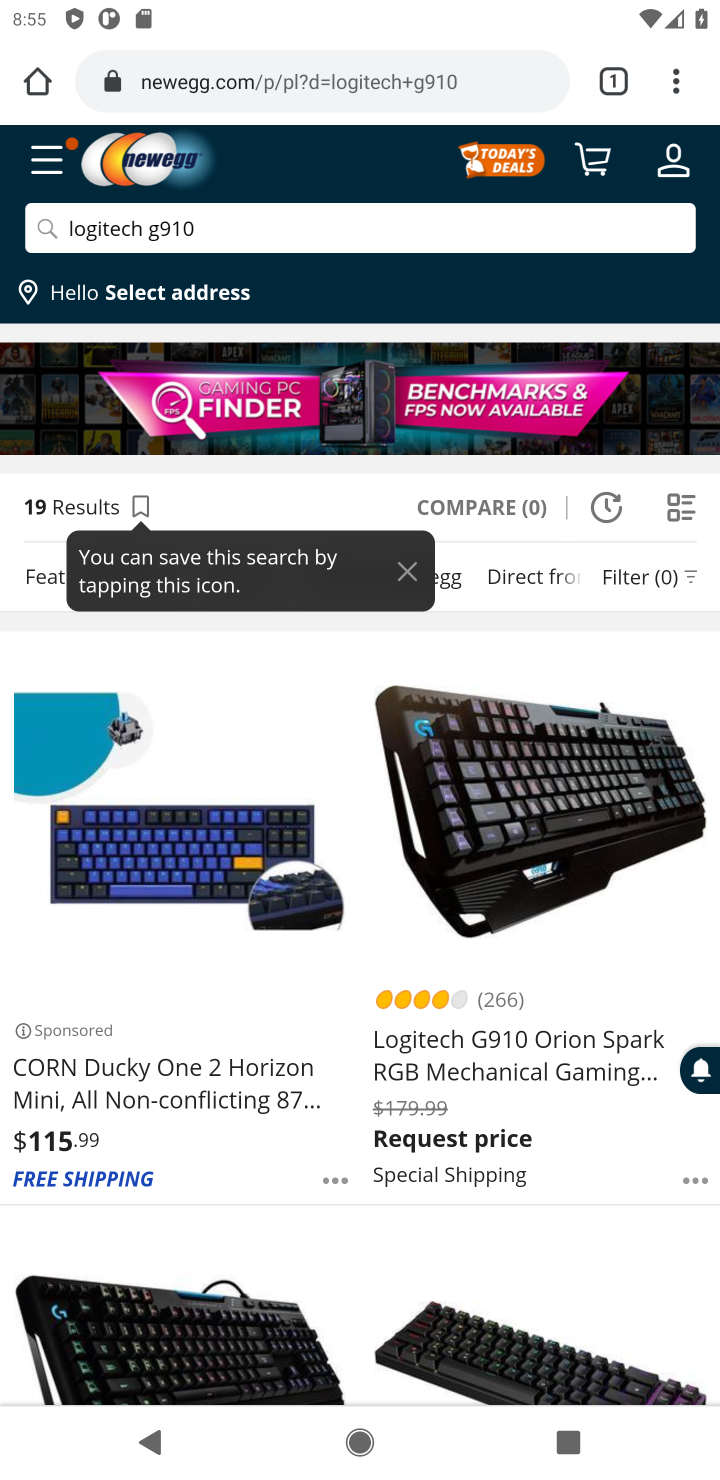
Step 30: click (498, 924)
Your task to perform on an android device: Clear the shopping cart on newegg.com. Add "logitech g910" to the cart on newegg.com, then select checkout. Image 31: 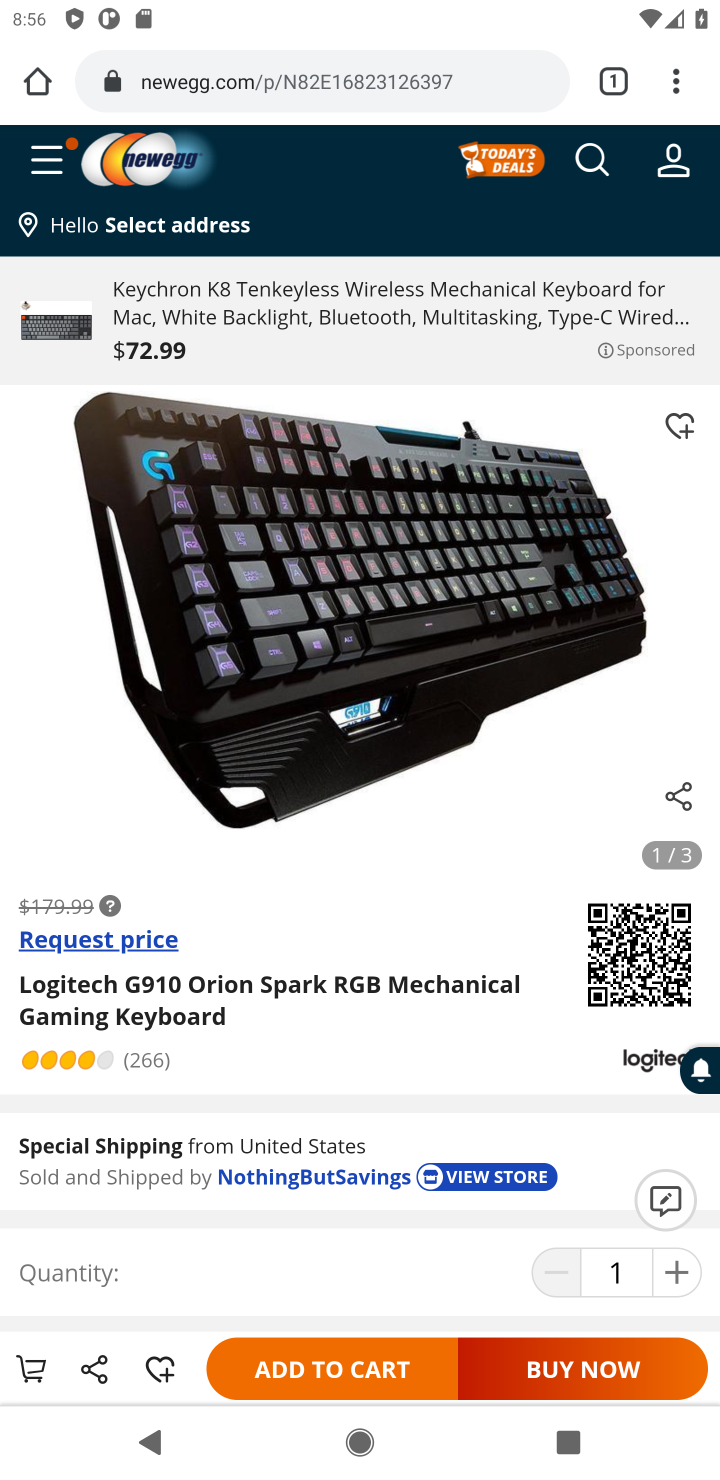
Step 31: click (344, 1360)
Your task to perform on an android device: Clear the shopping cart on newegg.com. Add "logitech g910" to the cart on newegg.com, then select checkout. Image 32: 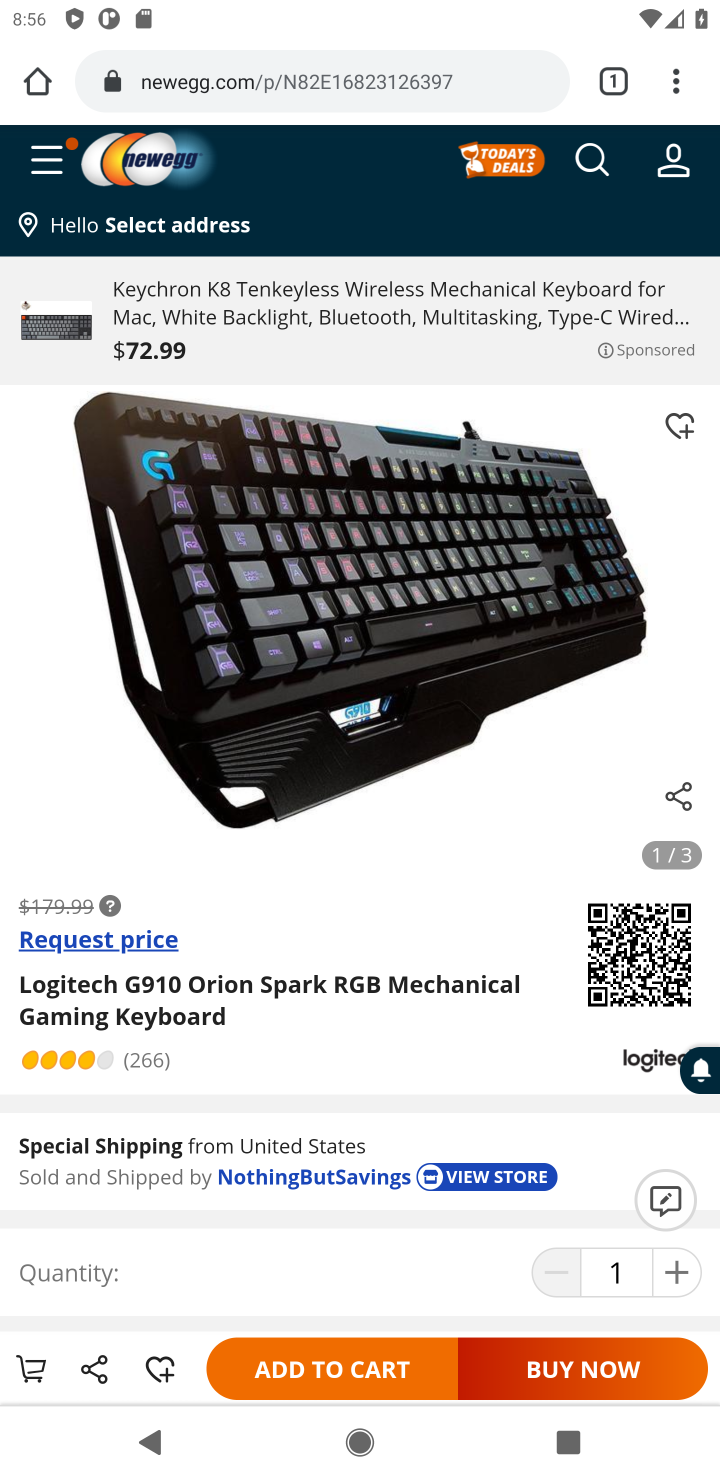
Step 32: click (325, 1368)
Your task to perform on an android device: Clear the shopping cart on newegg.com. Add "logitech g910" to the cart on newegg.com, then select checkout. Image 33: 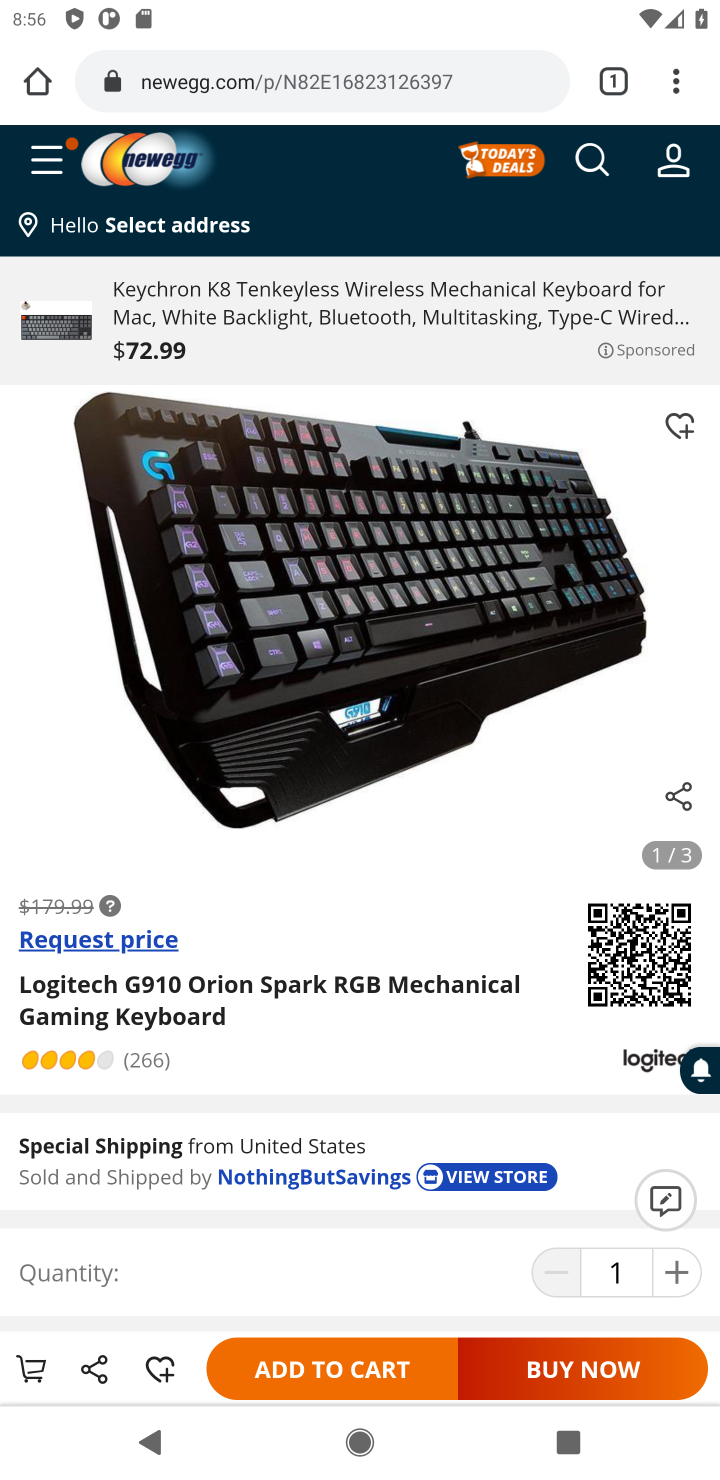
Step 33: drag from (300, 1130) to (14, 432)
Your task to perform on an android device: Clear the shopping cart on newegg.com. Add "logitech g910" to the cart on newegg.com, then select checkout. Image 34: 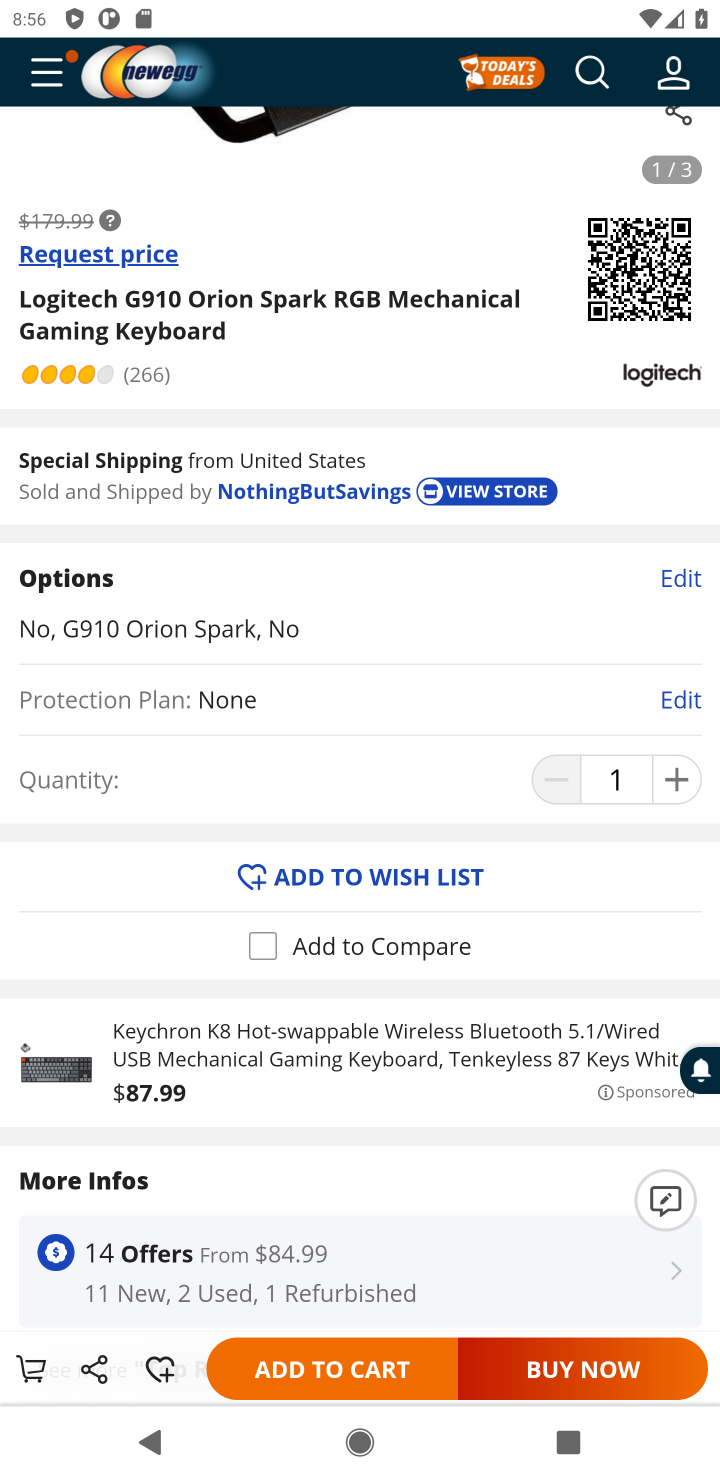
Step 34: click (345, 1375)
Your task to perform on an android device: Clear the shopping cart on newegg.com. Add "logitech g910" to the cart on newegg.com, then select checkout. Image 35: 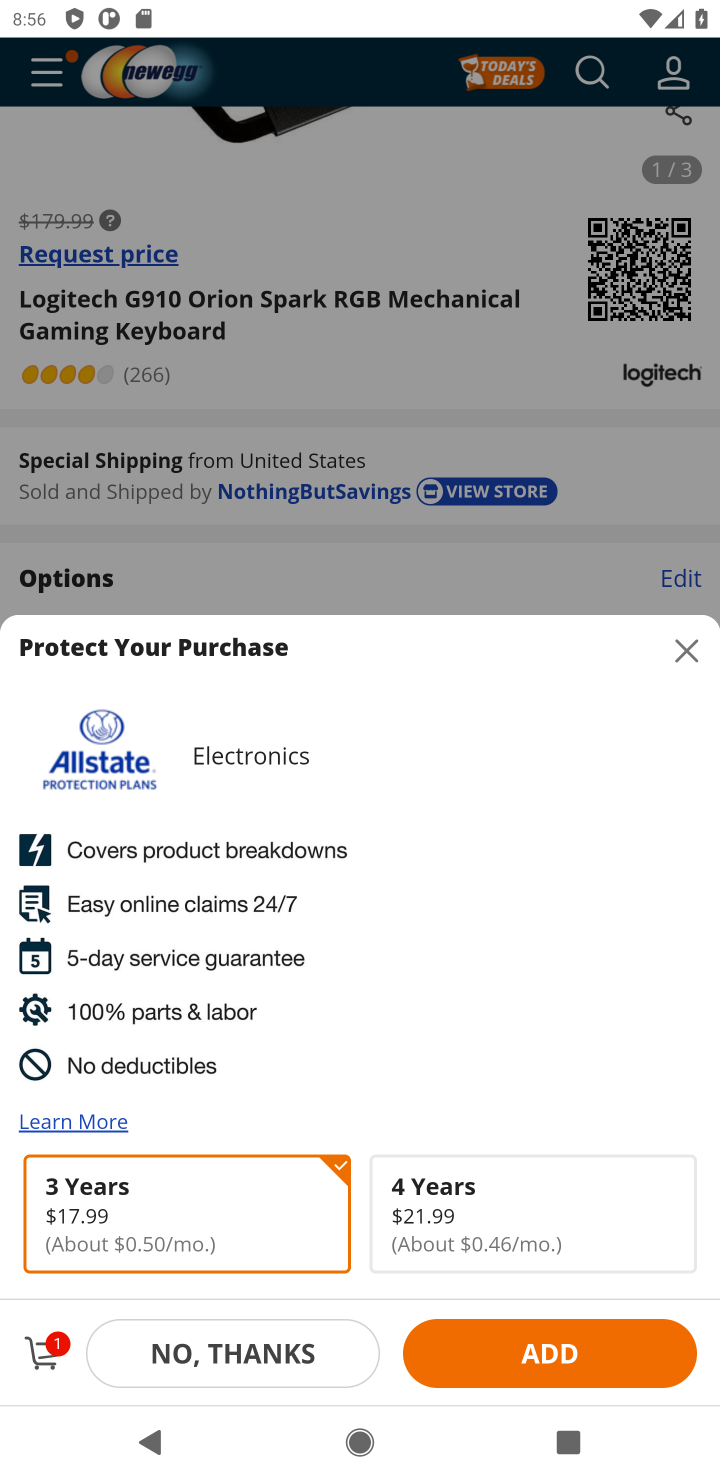
Step 35: click (229, 1349)
Your task to perform on an android device: Clear the shopping cart on newegg.com. Add "logitech g910" to the cart on newegg.com, then select checkout. Image 36: 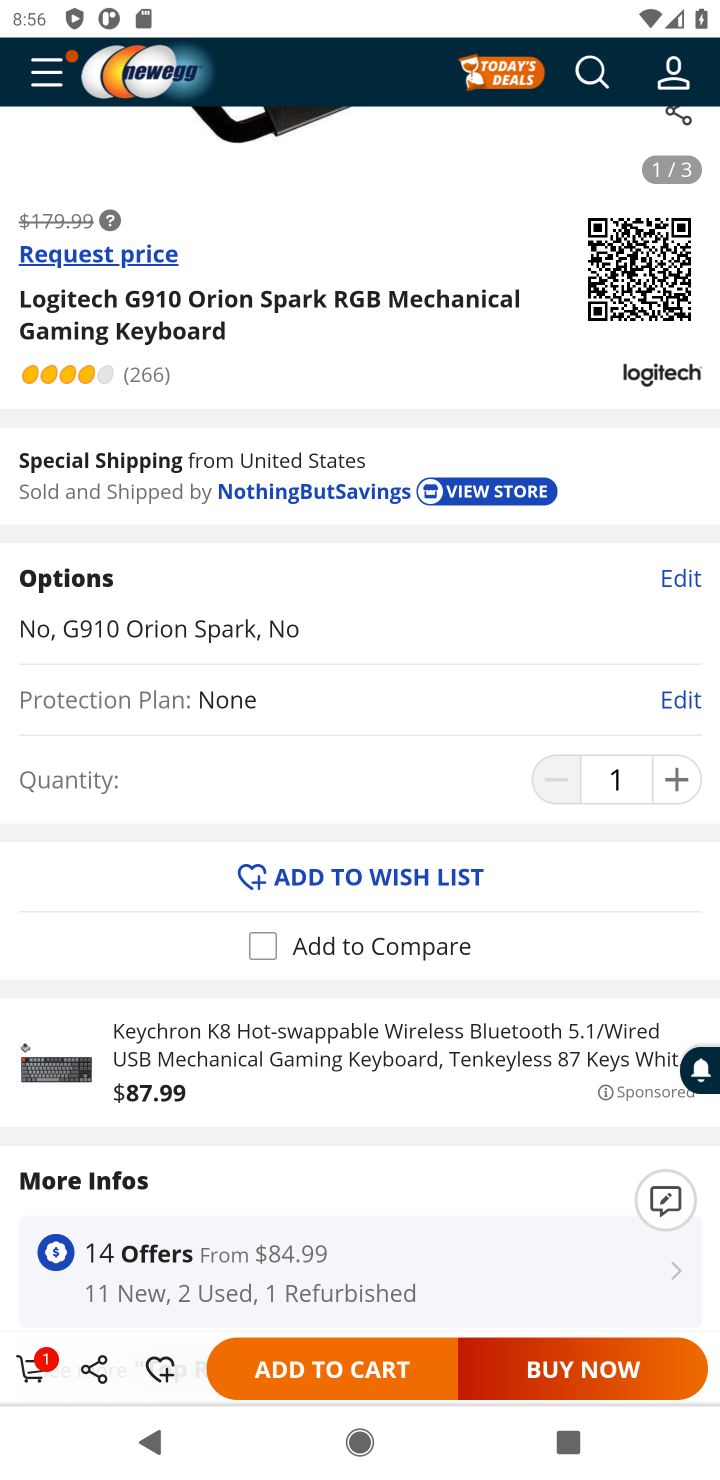
Step 36: click (40, 1377)
Your task to perform on an android device: Clear the shopping cart on newegg.com. Add "logitech g910" to the cart on newegg.com, then select checkout. Image 37: 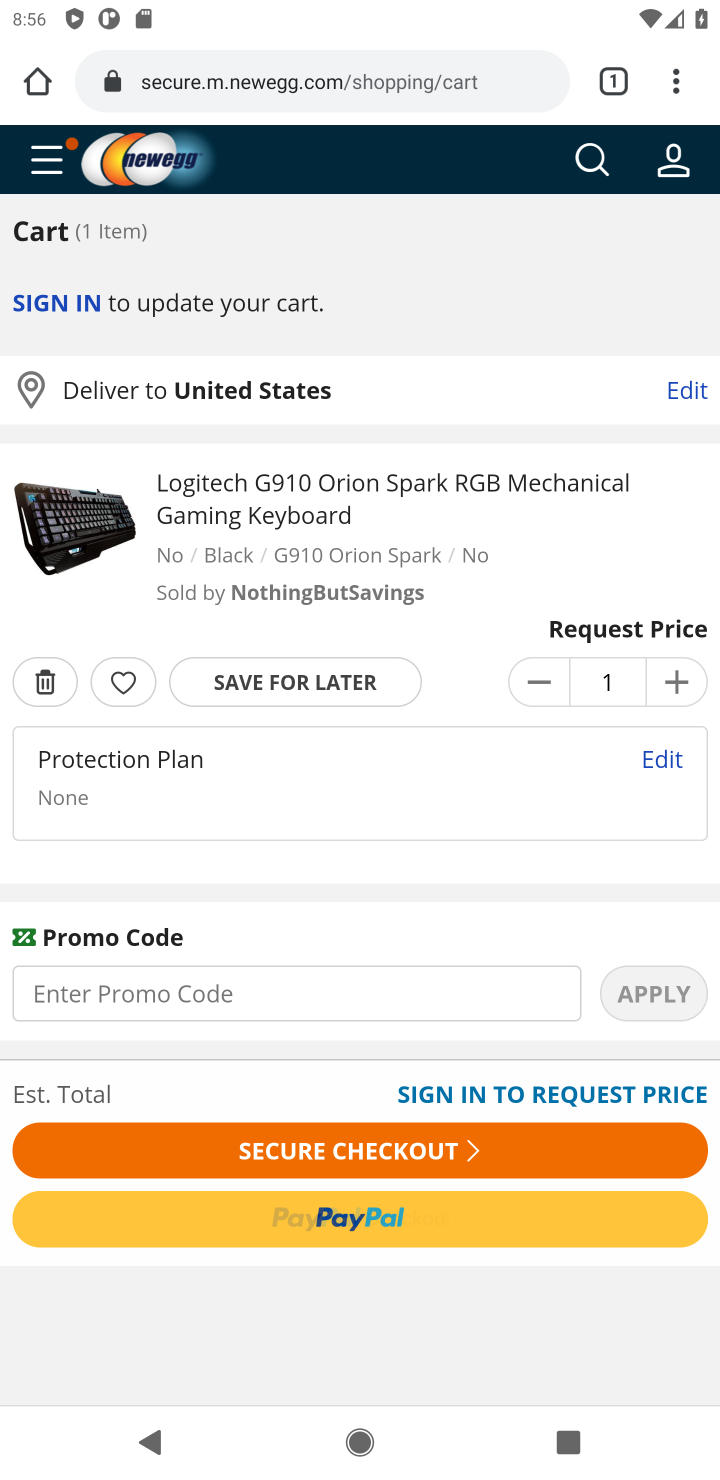
Step 37: click (380, 1147)
Your task to perform on an android device: Clear the shopping cart on newegg.com. Add "logitech g910" to the cart on newegg.com, then select checkout. Image 38: 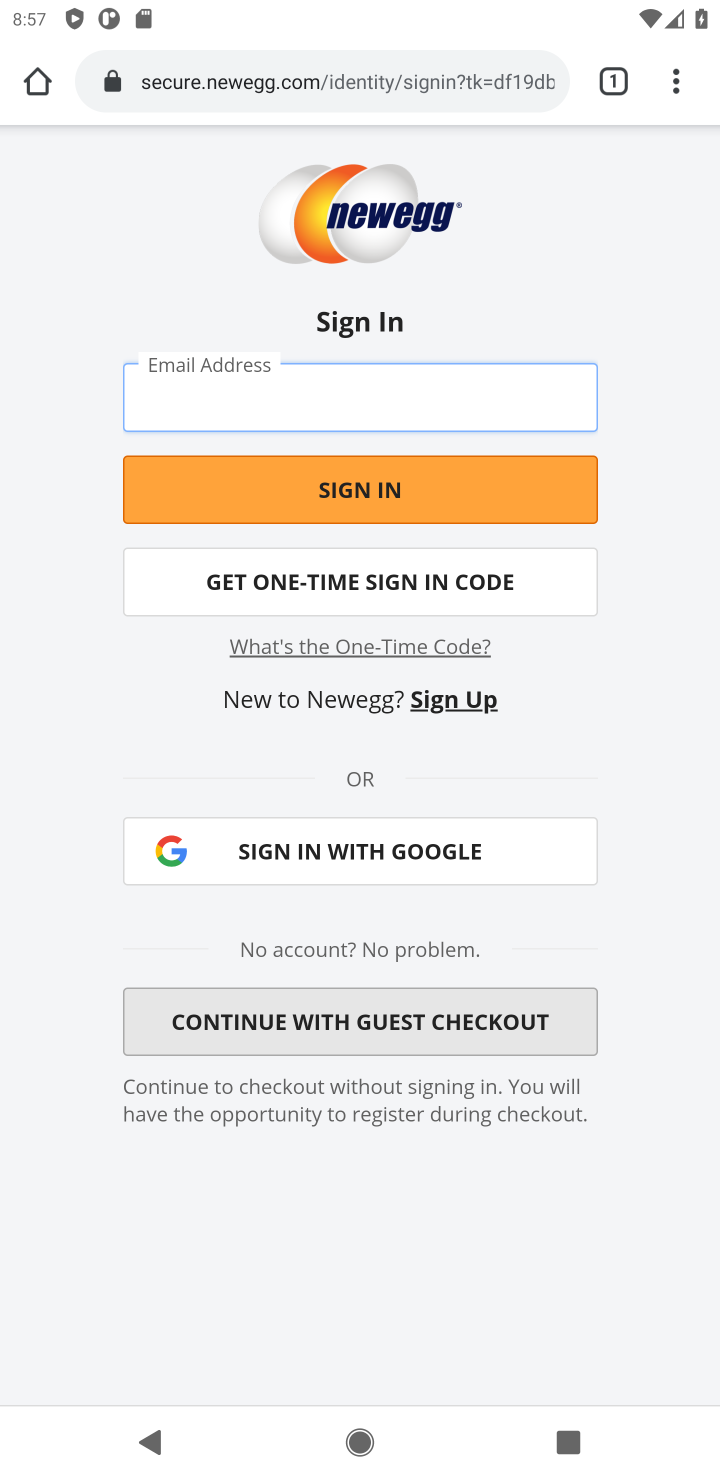
Step 38: task complete